Your task to perform on an android device: Clear all items from cart on bestbuy.com. Search for macbook pro on bestbuy.com, select the first entry, and add it to the cart. Image 0: 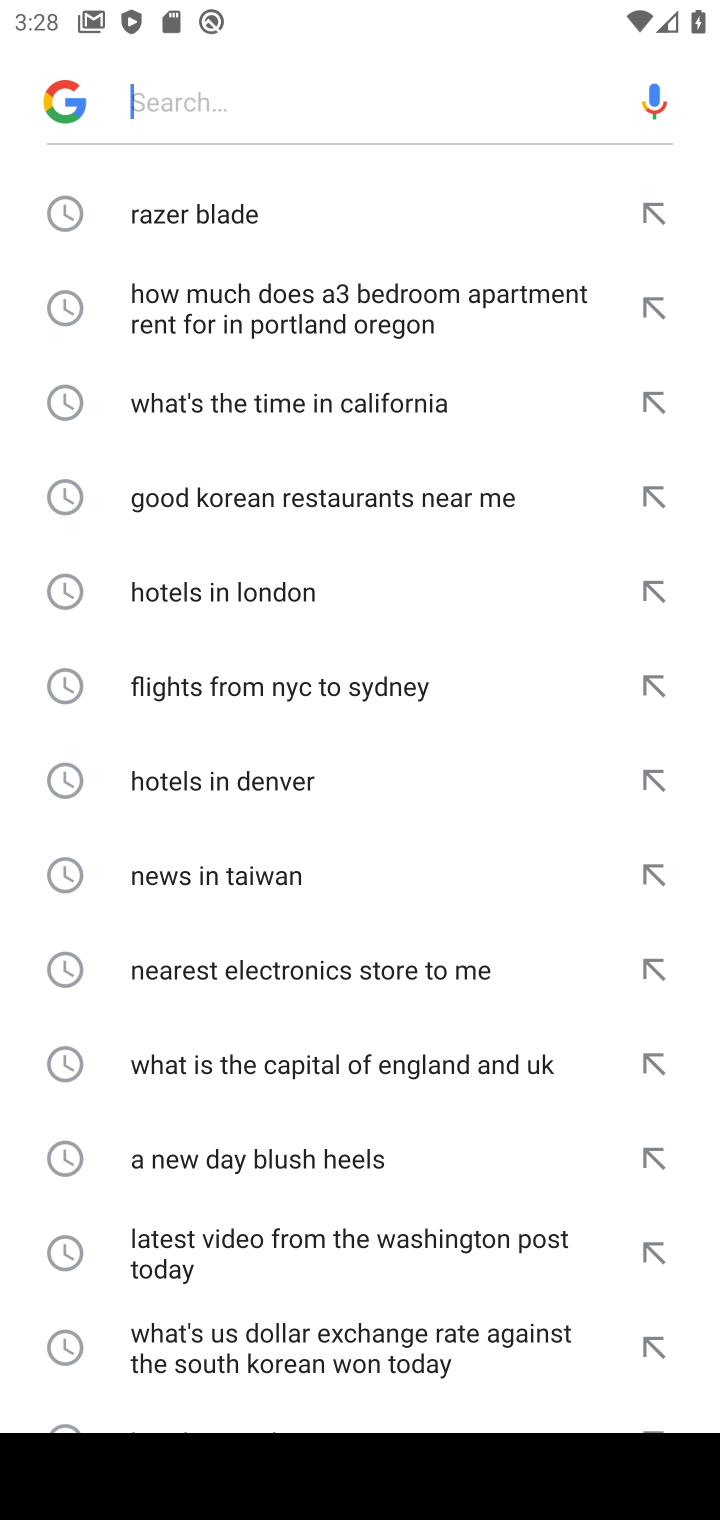
Step 0: press home button
Your task to perform on an android device: Clear all items from cart on bestbuy.com. Search for macbook pro on bestbuy.com, select the first entry, and add it to the cart. Image 1: 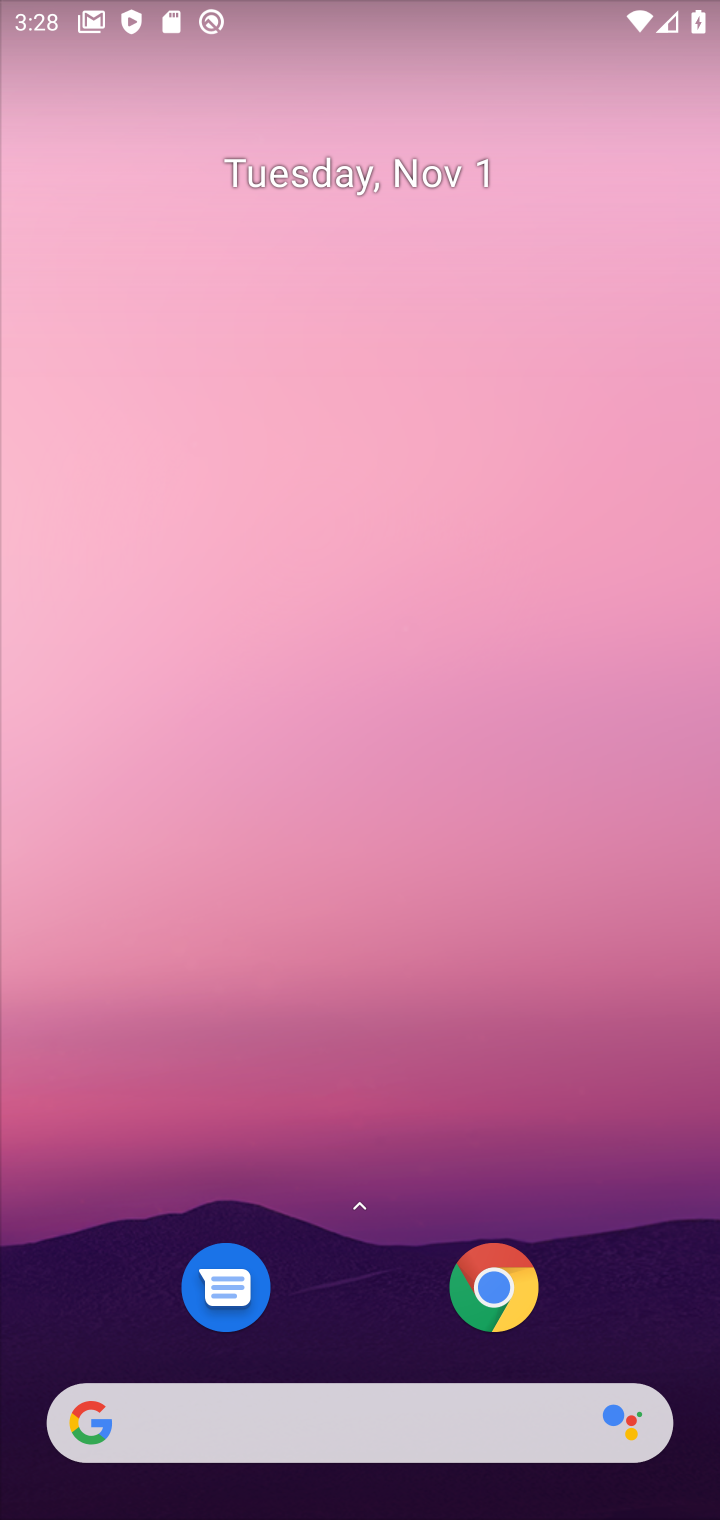
Step 1: drag from (384, 1137) to (514, 153)
Your task to perform on an android device: Clear all items from cart on bestbuy.com. Search for macbook pro on bestbuy.com, select the first entry, and add it to the cart. Image 2: 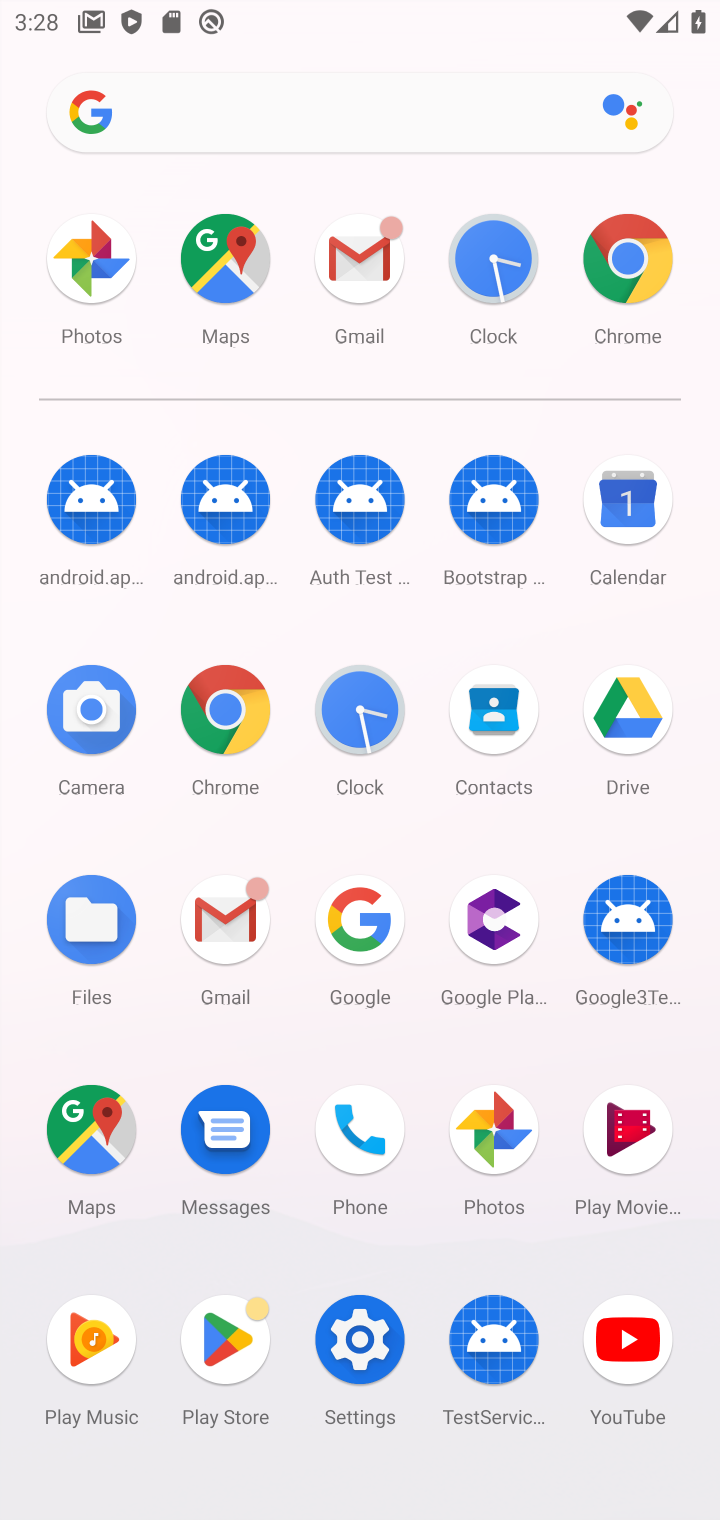
Step 2: click (233, 708)
Your task to perform on an android device: Clear all items from cart on bestbuy.com. Search for macbook pro on bestbuy.com, select the first entry, and add it to the cart. Image 3: 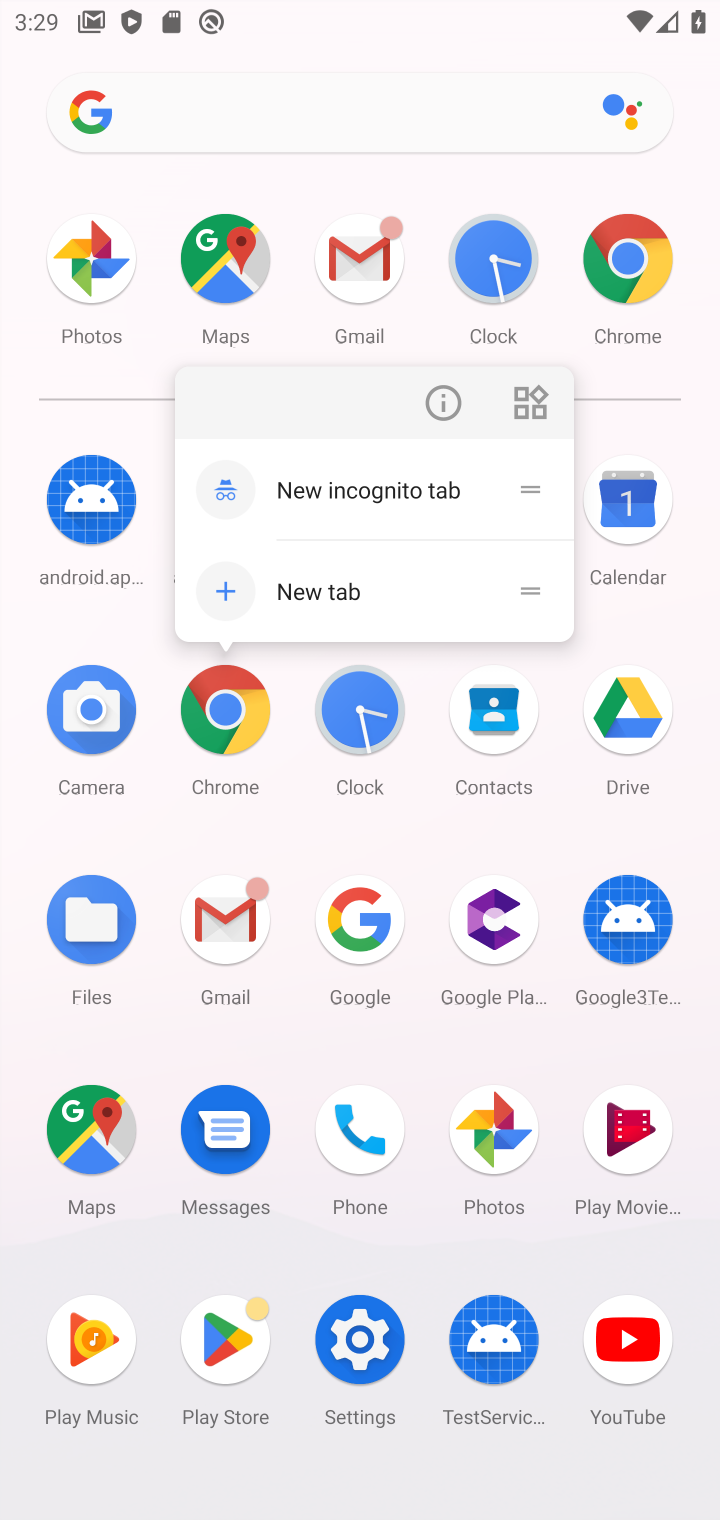
Step 3: click (233, 708)
Your task to perform on an android device: Clear all items from cart on bestbuy.com. Search for macbook pro on bestbuy.com, select the first entry, and add it to the cart. Image 4: 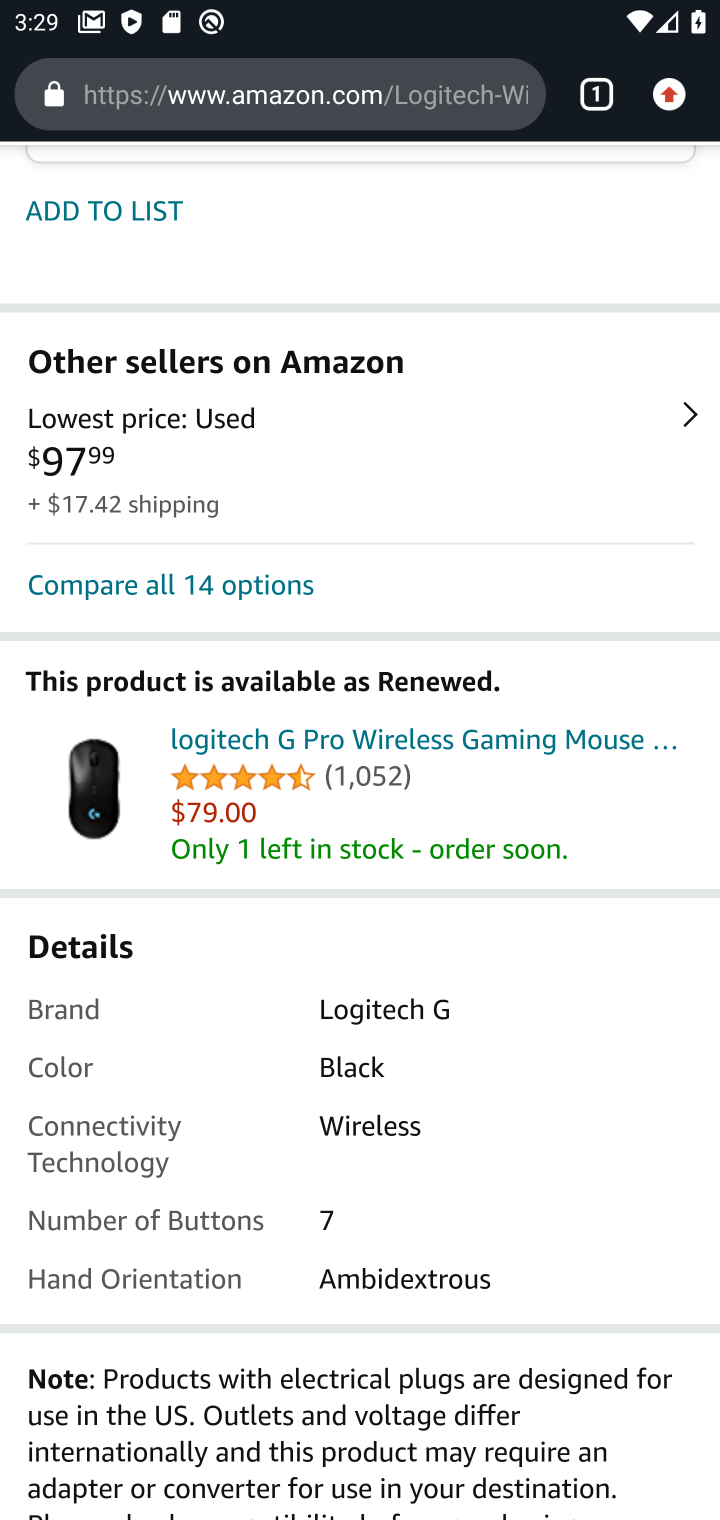
Step 4: drag from (419, 212) to (400, 661)
Your task to perform on an android device: Clear all items from cart on bestbuy.com. Search for macbook pro on bestbuy.com, select the first entry, and add it to the cart. Image 5: 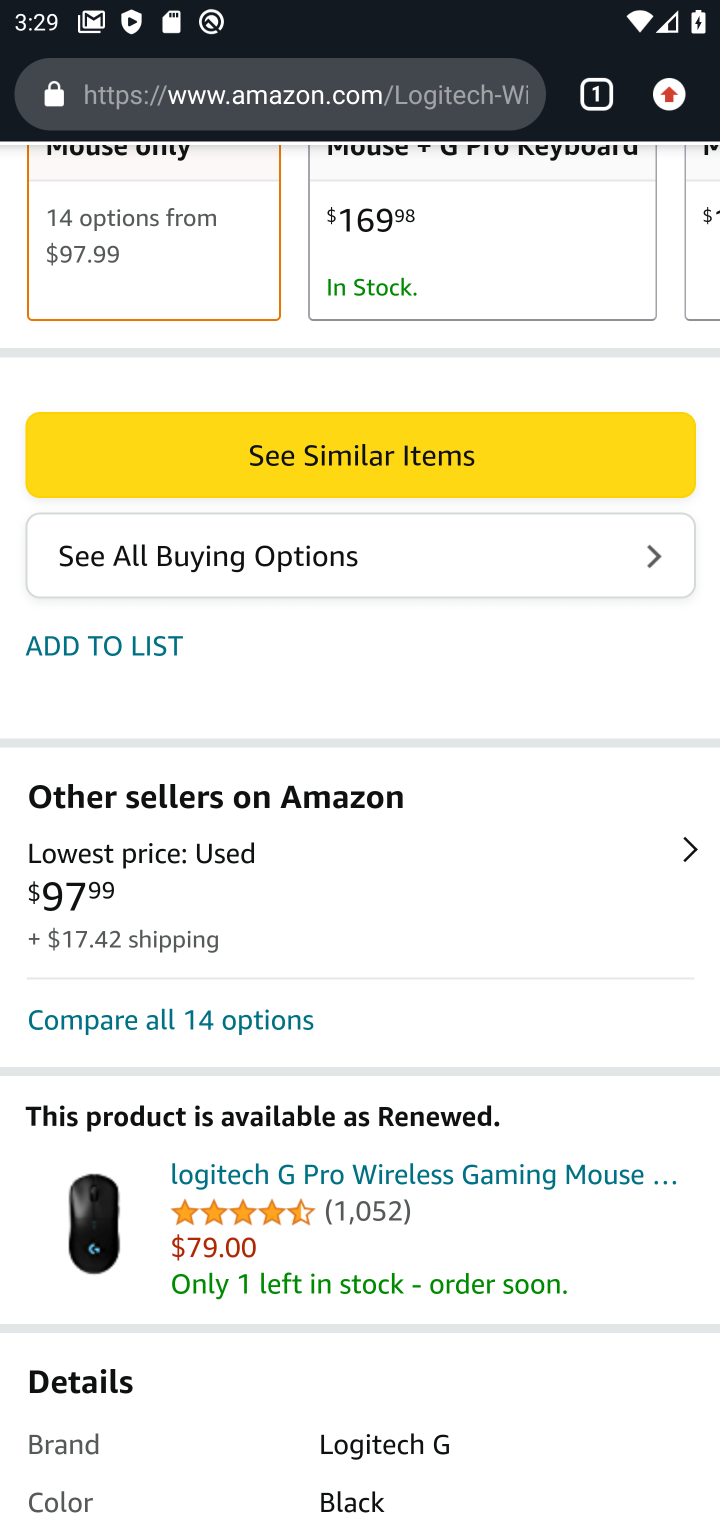
Step 5: click (331, 99)
Your task to perform on an android device: Clear all items from cart on bestbuy.com. Search for macbook pro on bestbuy.com, select the first entry, and add it to the cart. Image 6: 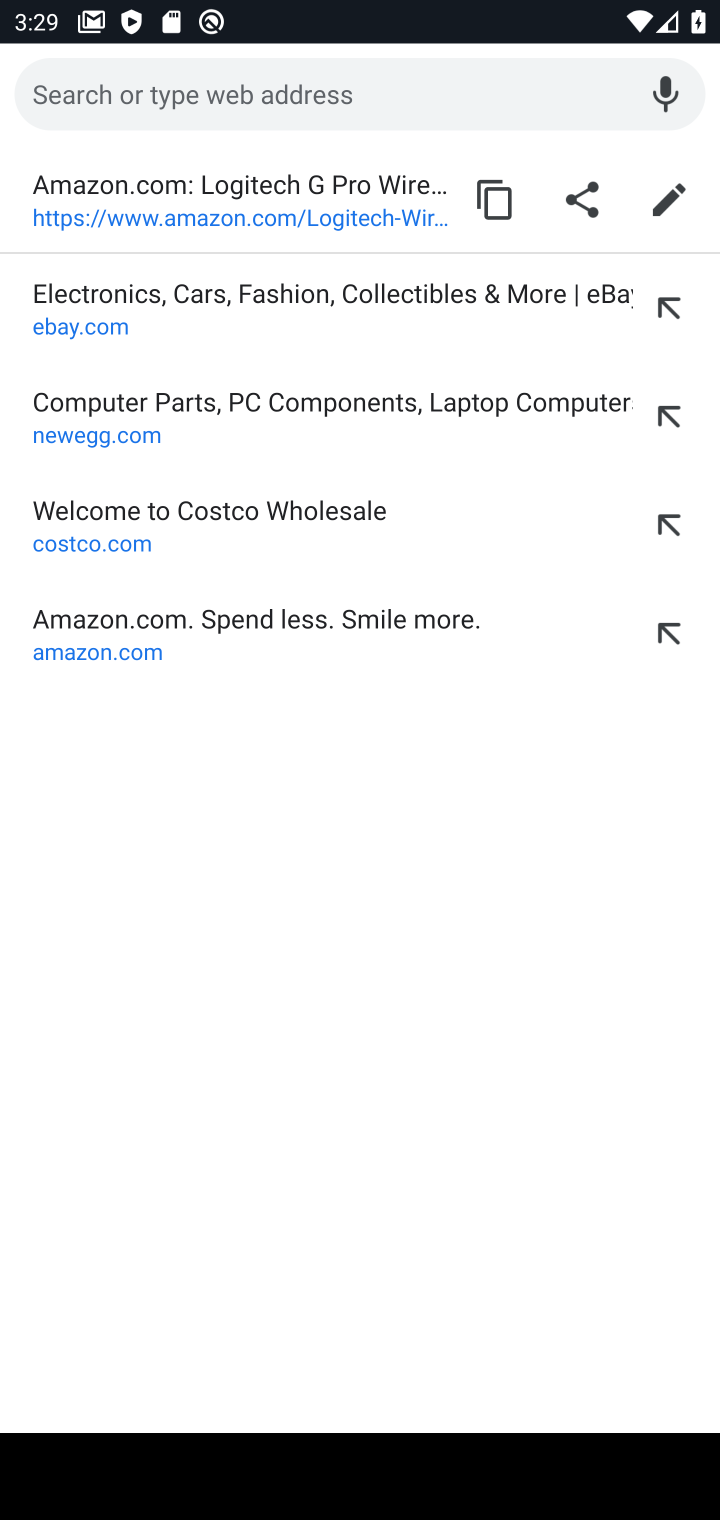
Step 6: type "bestbuy.com"
Your task to perform on an android device: Clear all items from cart on bestbuy.com. Search for macbook pro on bestbuy.com, select the first entry, and add it to the cart. Image 7: 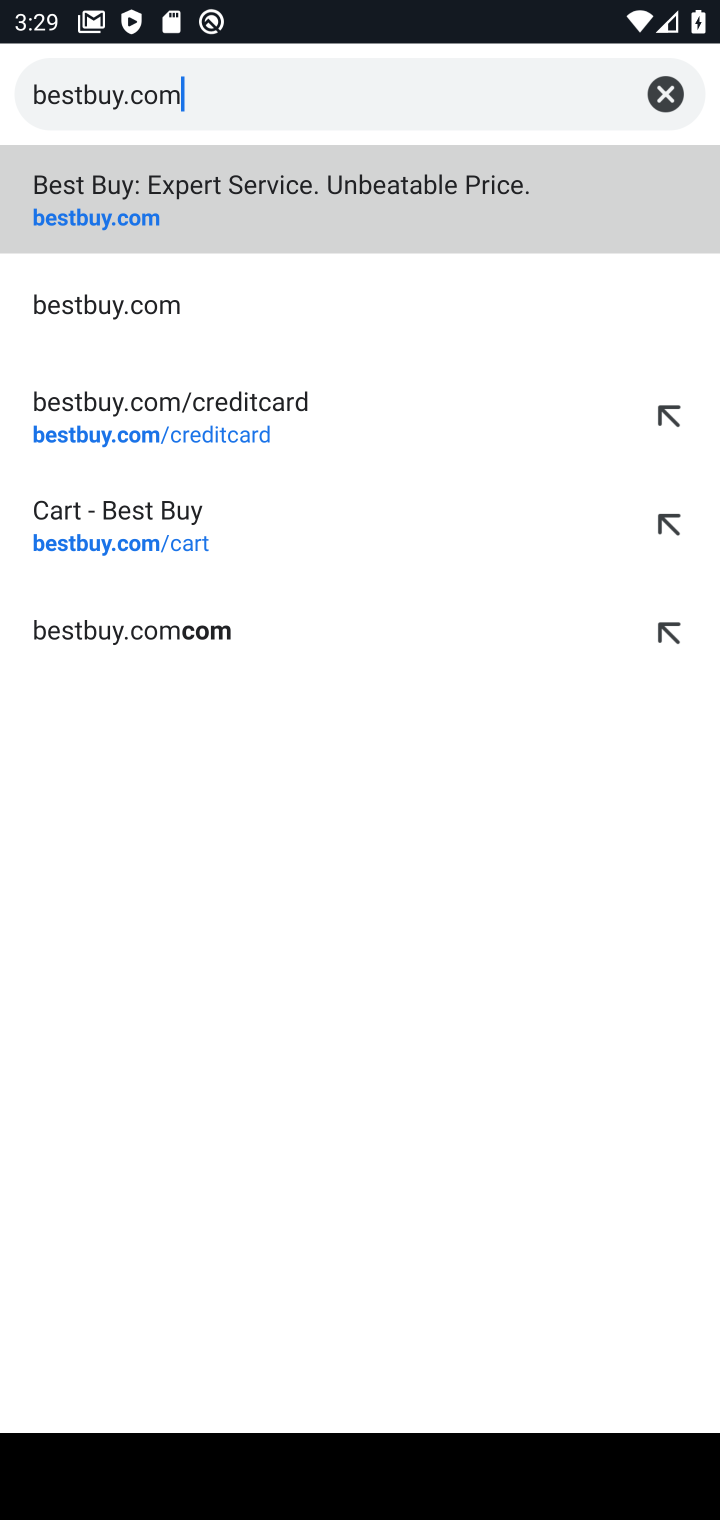
Step 7: press enter
Your task to perform on an android device: Clear all items from cart on bestbuy.com. Search for macbook pro on bestbuy.com, select the first entry, and add it to the cart. Image 8: 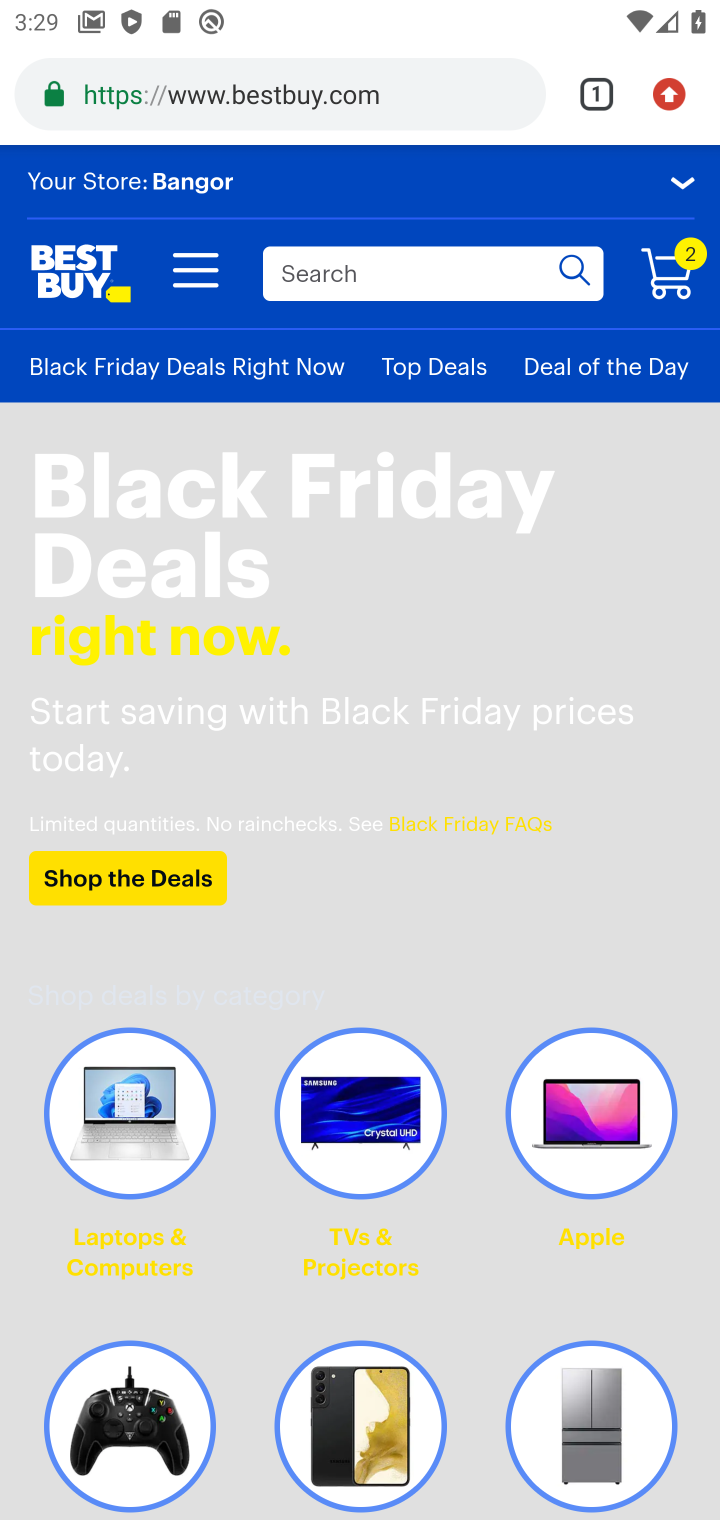
Step 8: click (677, 274)
Your task to perform on an android device: Clear all items from cart on bestbuy.com. Search for macbook pro on bestbuy.com, select the first entry, and add it to the cart. Image 9: 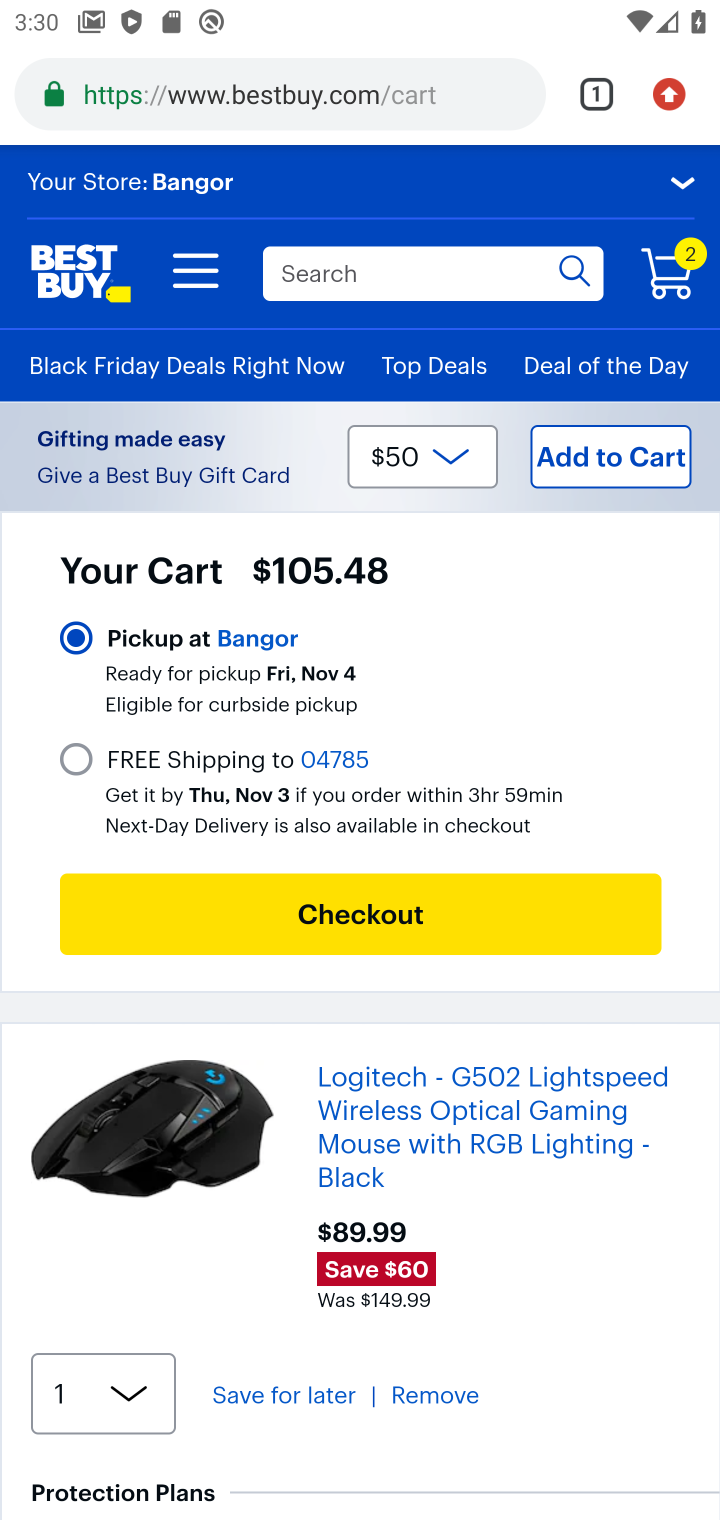
Step 9: click (403, 1396)
Your task to perform on an android device: Clear all items from cart on bestbuy.com. Search for macbook pro on bestbuy.com, select the first entry, and add it to the cart. Image 10: 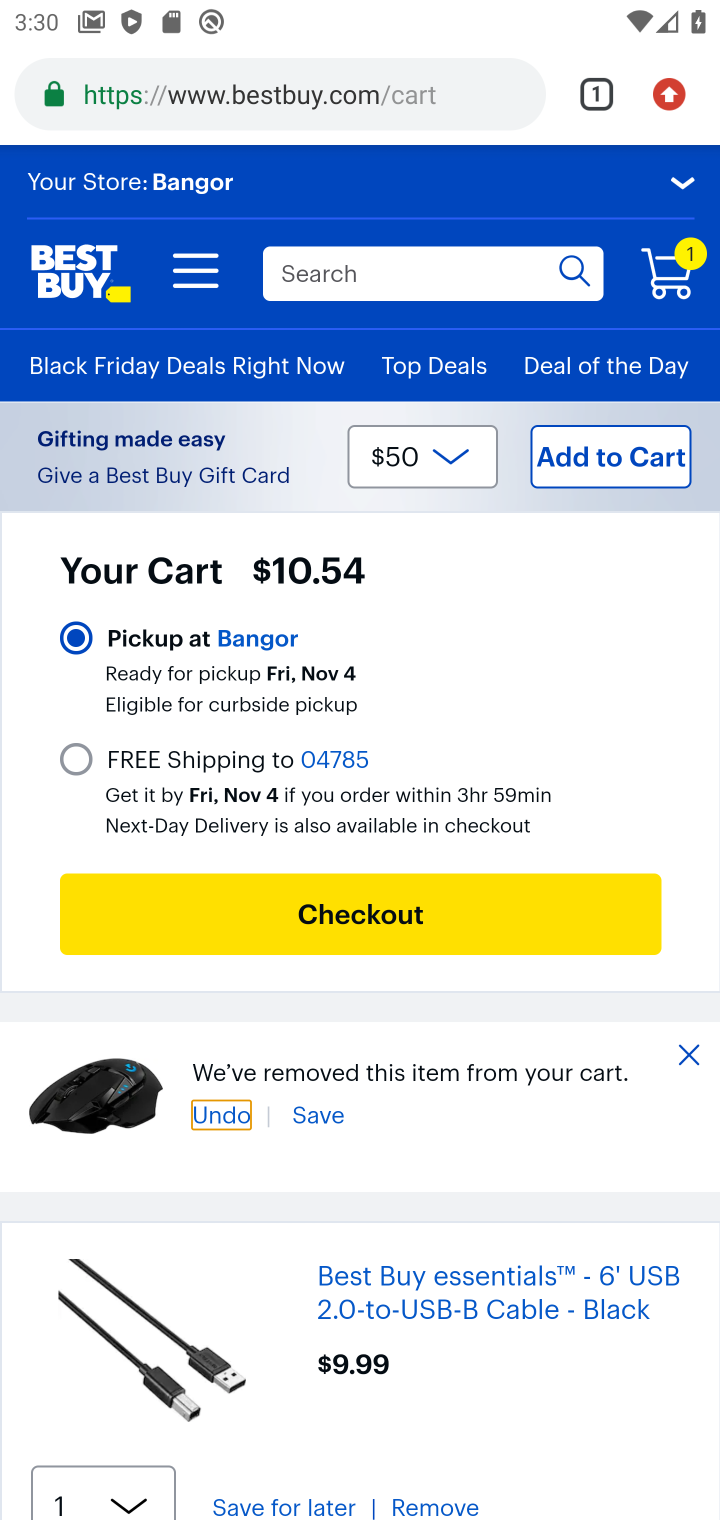
Step 10: drag from (409, 1220) to (470, 693)
Your task to perform on an android device: Clear all items from cart on bestbuy.com. Search for macbook pro on bestbuy.com, select the first entry, and add it to the cart. Image 11: 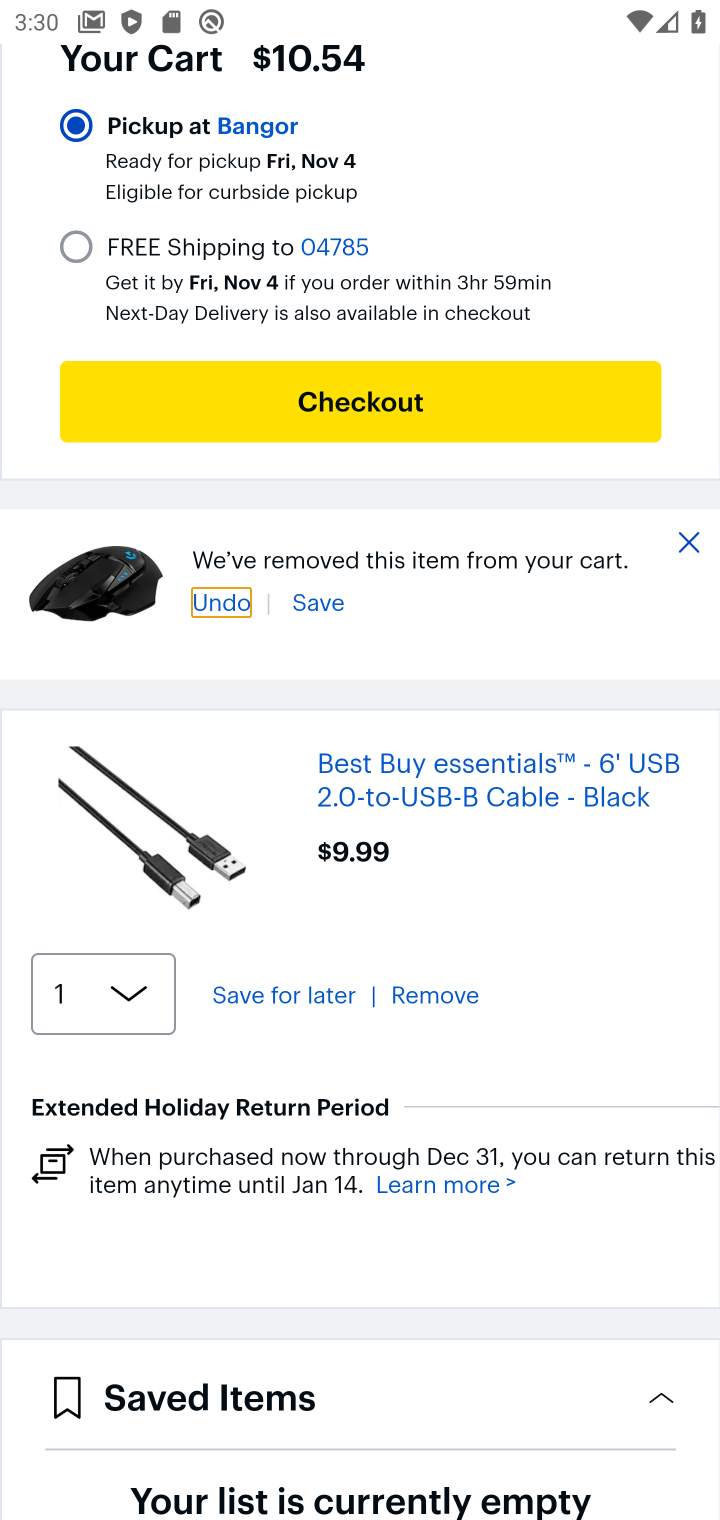
Step 11: click (441, 991)
Your task to perform on an android device: Clear all items from cart on bestbuy.com. Search for macbook pro on bestbuy.com, select the first entry, and add it to the cart. Image 12: 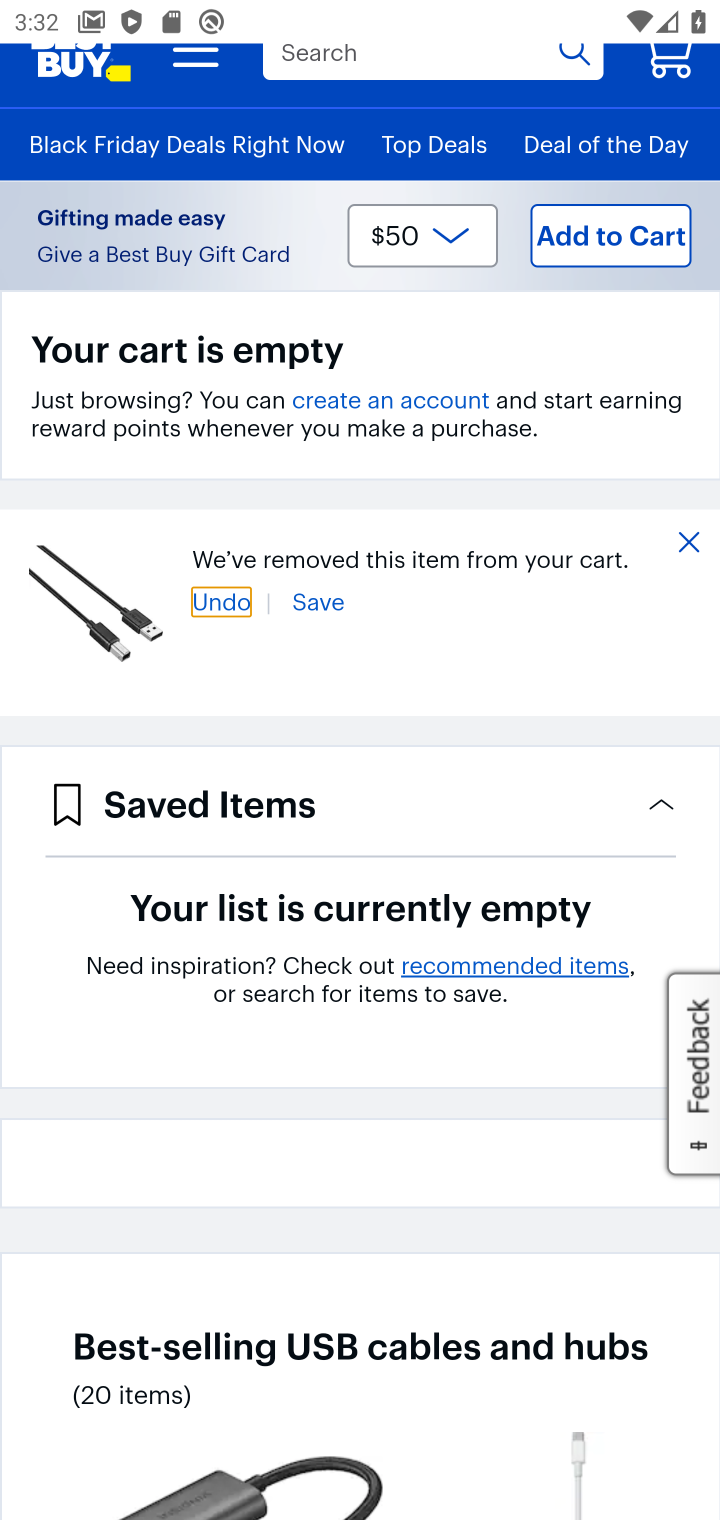
Step 12: drag from (498, 996) to (499, 460)
Your task to perform on an android device: Clear all items from cart on bestbuy.com. Search for macbook pro on bestbuy.com, select the first entry, and add it to the cart. Image 13: 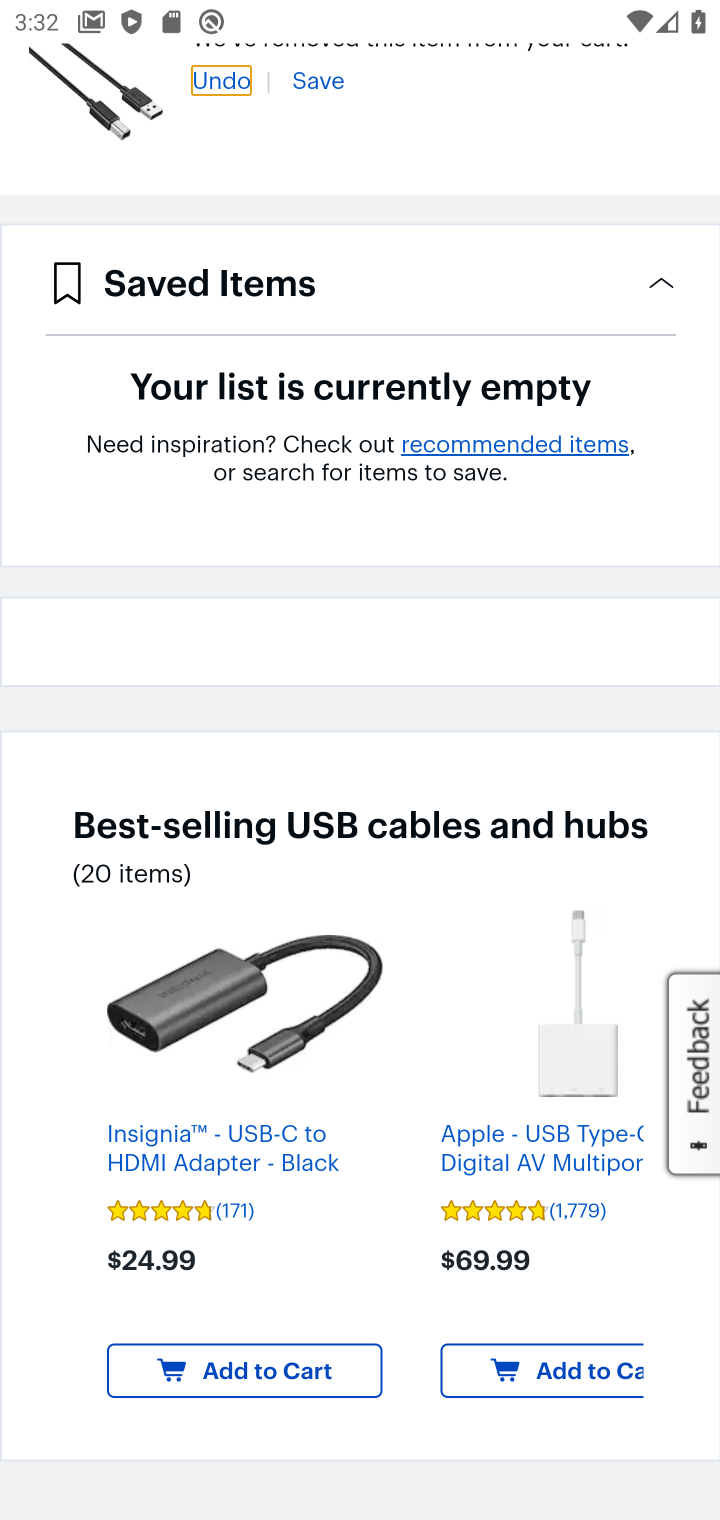
Step 13: drag from (325, 325) to (417, 1225)
Your task to perform on an android device: Clear all items from cart on bestbuy.com. Search for macbook pro on bestbuy.com, select the first entry, and add it to the cart. Image 14: 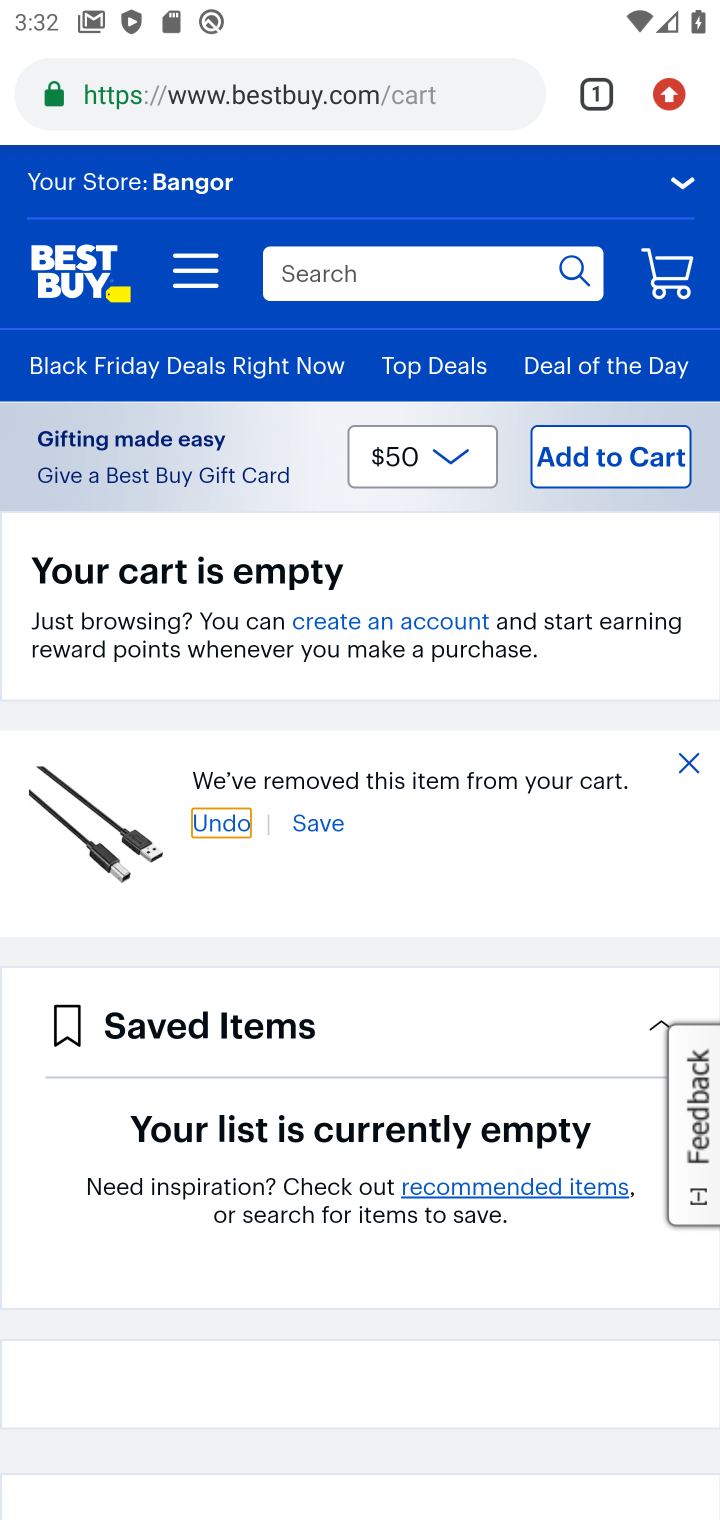
Step 14: click (516, 274)
Your task to perform on an android device: Clear all items from cart on bestbuy.com. Search for macbook pro on bestbuy.com, select the first entry, and add it to the cart. Image 15: 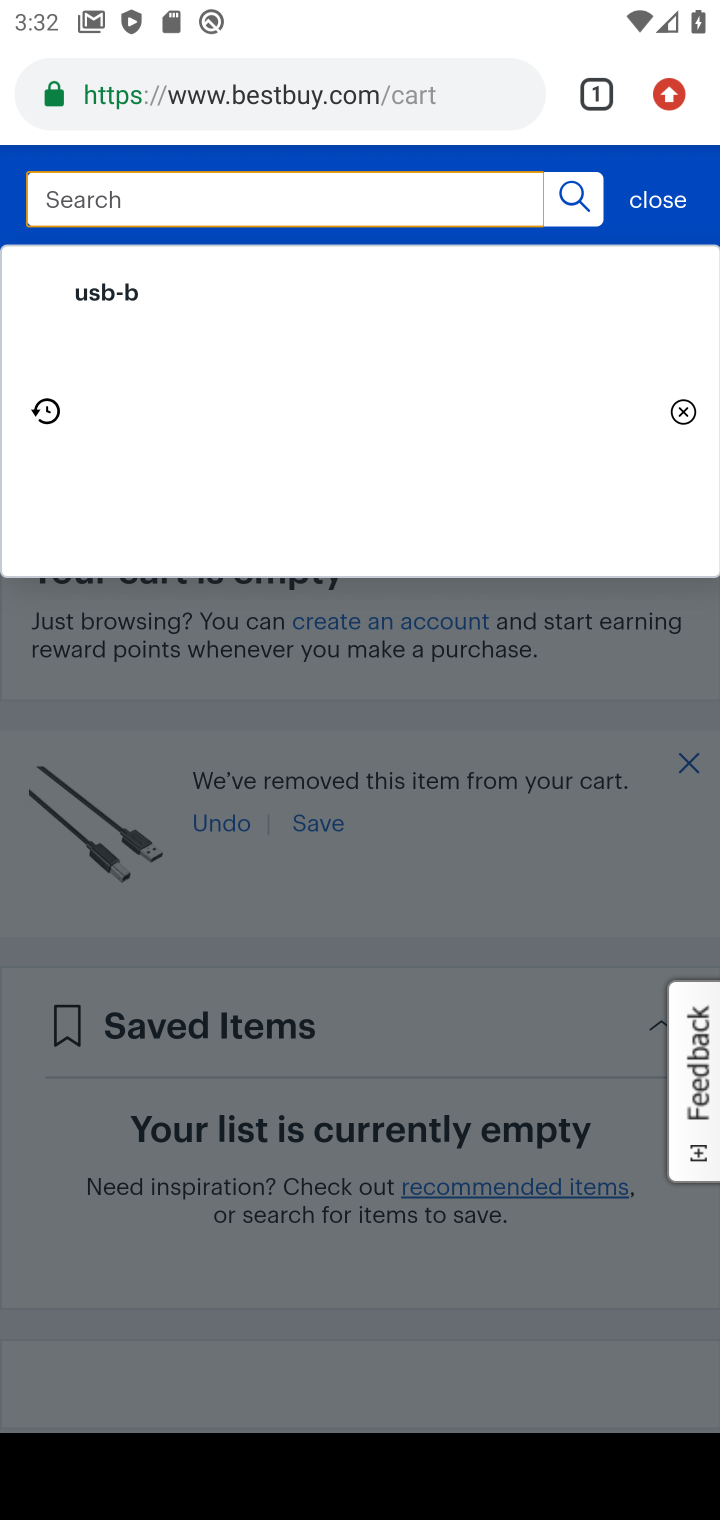
Step 15: type "macbook pro"
Your task to perform on an android device: Clear all items from cart on bestbuy.com. Search for macbook pro on bestbuy.com, select the first entry, and add it to the cart. Image 16: 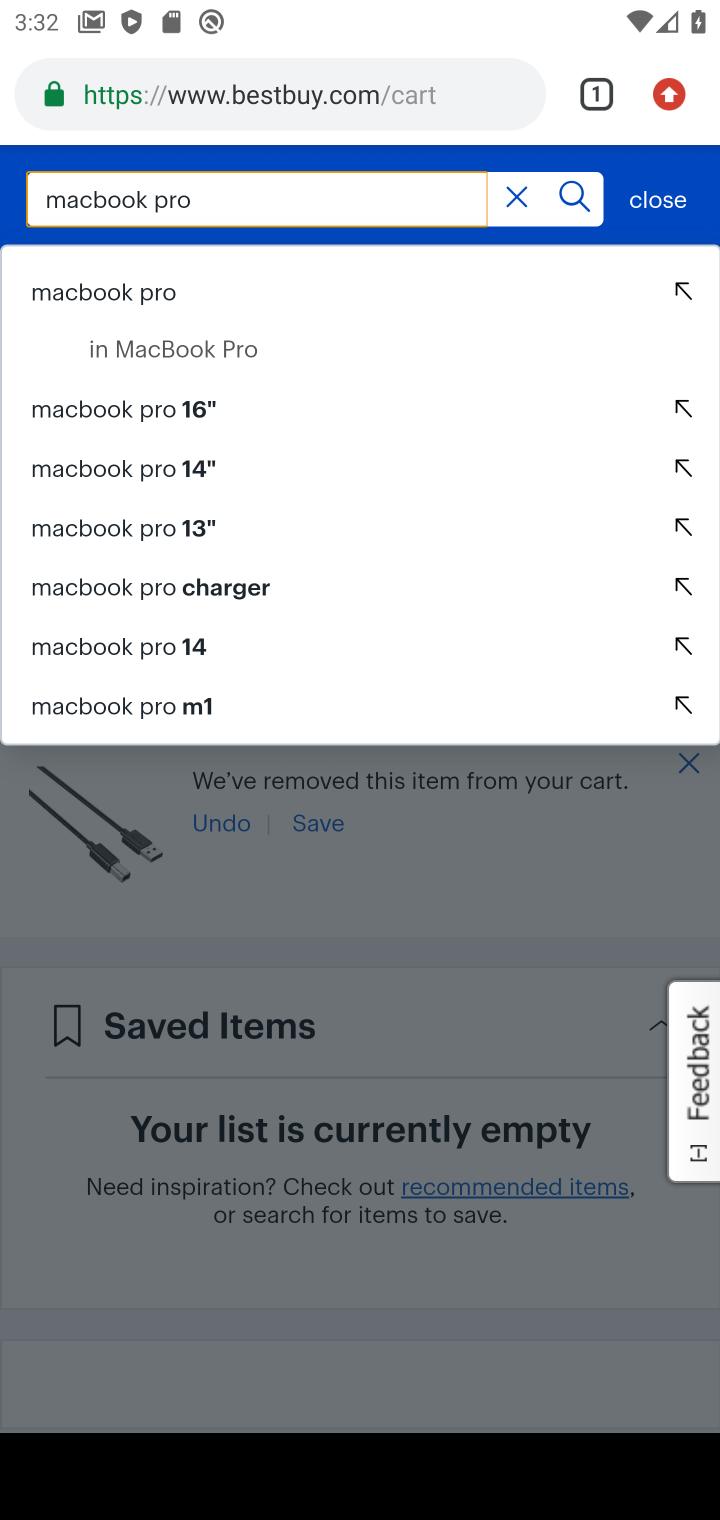
Step 16: press enter
Your task to perform on an android device: Clear all items from cart on bestbuy.com. Search for macbook pro on bestbuy.com, select the first entry, and add it to the cart. Image 17: 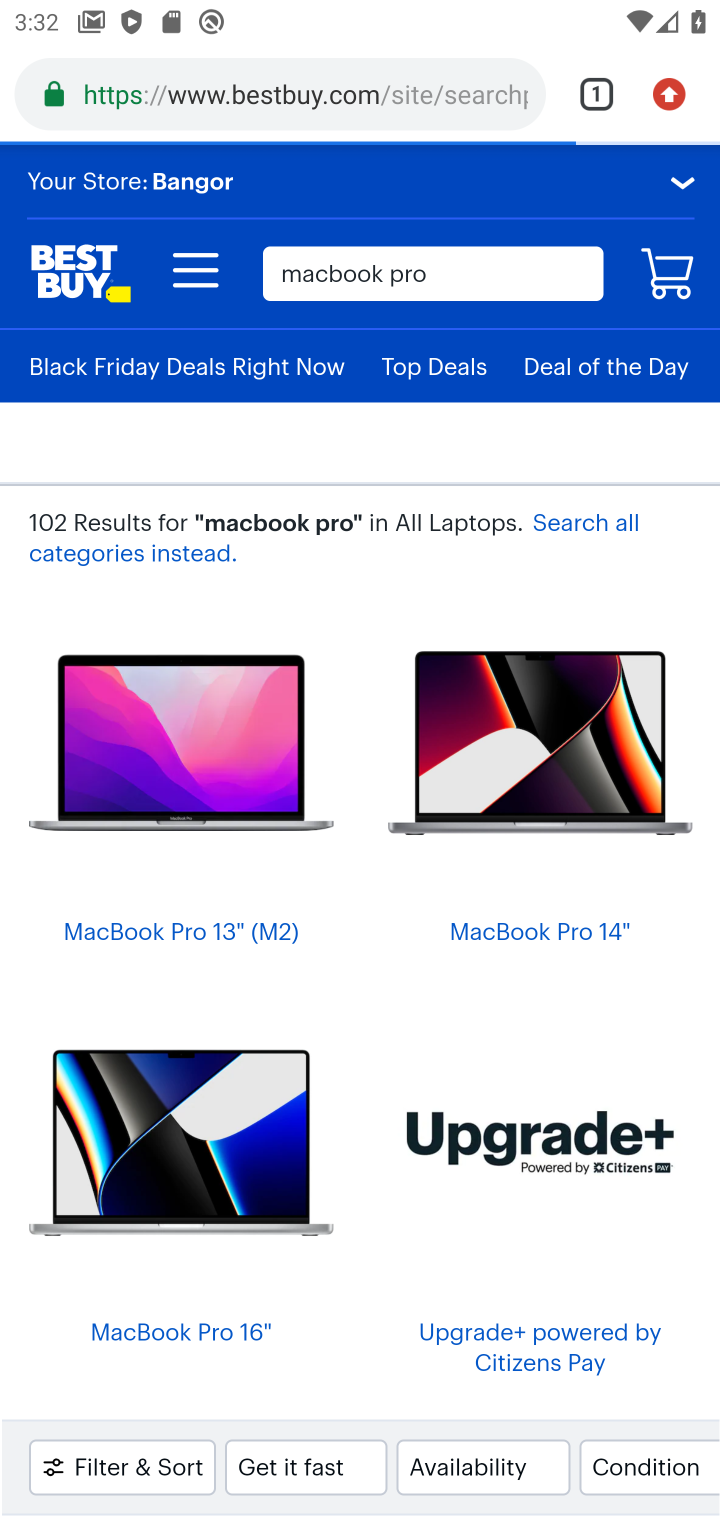
Step 17: drag from (401, 1133) to (386, 174)
Your task to perform on an android device: Clear all items from cart on bestbuy.com. Search for macbook pro on bestbuy.com, select the first entry, and add it to the cart. Image 18: 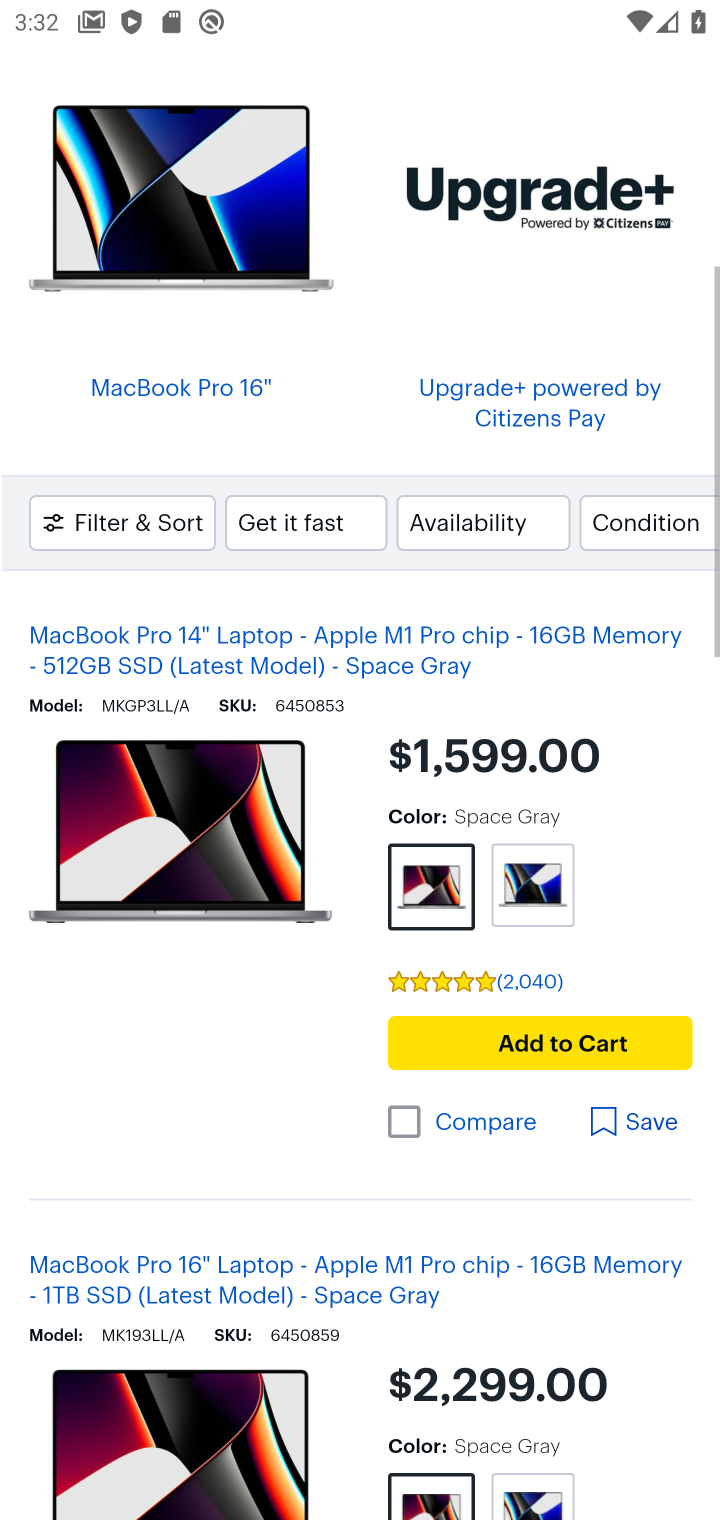
Step 18: drag from (374, 673) to (291, 1287)
Your task to perform on an android device: Clear all items from cart on bestbuy.com. Search for macbook pro on bestbuy.com, select the first entry, and add it to the cart. Image 19: 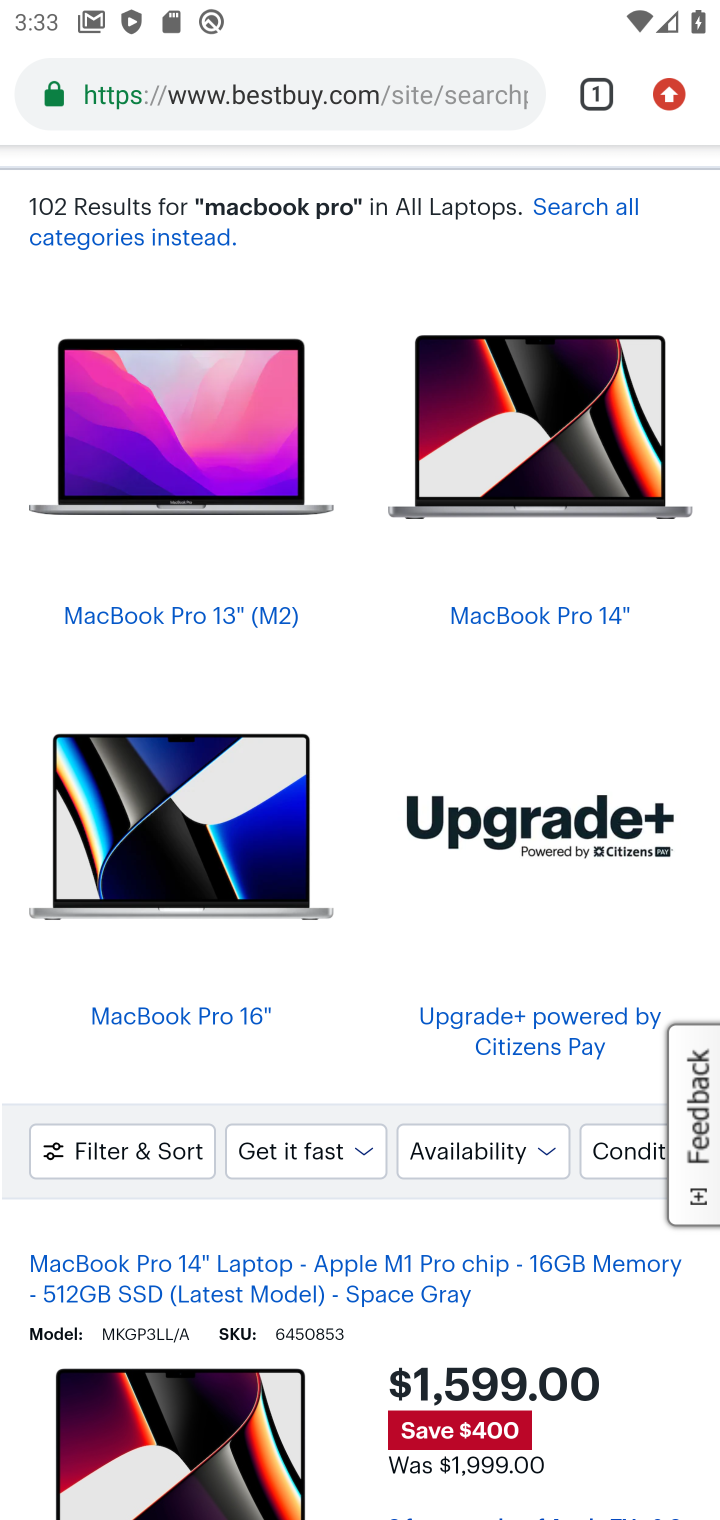
Step 19: drag from (419, 642) to (428, 1204)
Your task to perform on an android device: Clear all items from cart on bestbuy.com. Search for macbook pro on bestbuy.com, select the first entry, and add it to the cart. Image 20: 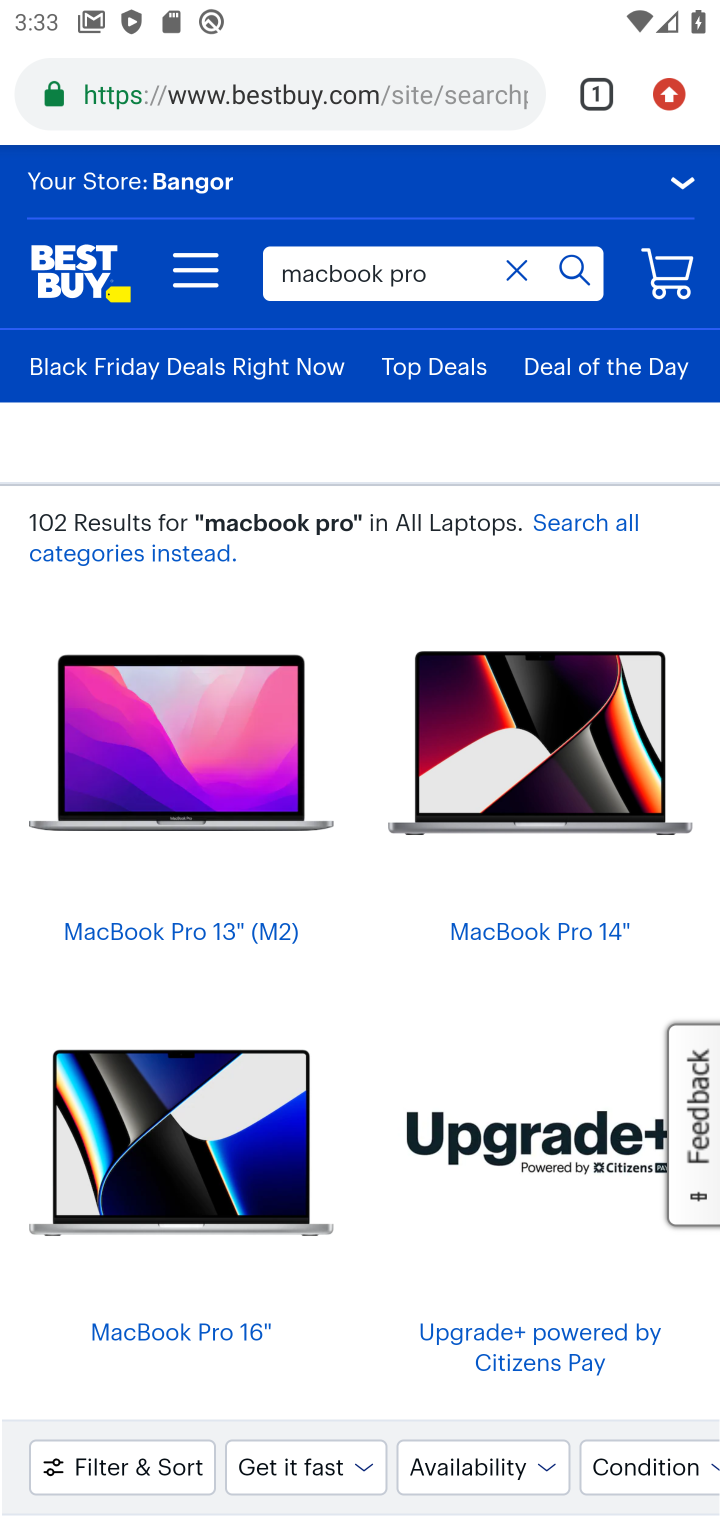
Step 20: click (219, 925)
Your task to perform on an android device: Clear all items from cart on bestbuy.com. Search for macbook pro on bestbuy.com, select the first entry, and add it to the cart. Image 21: 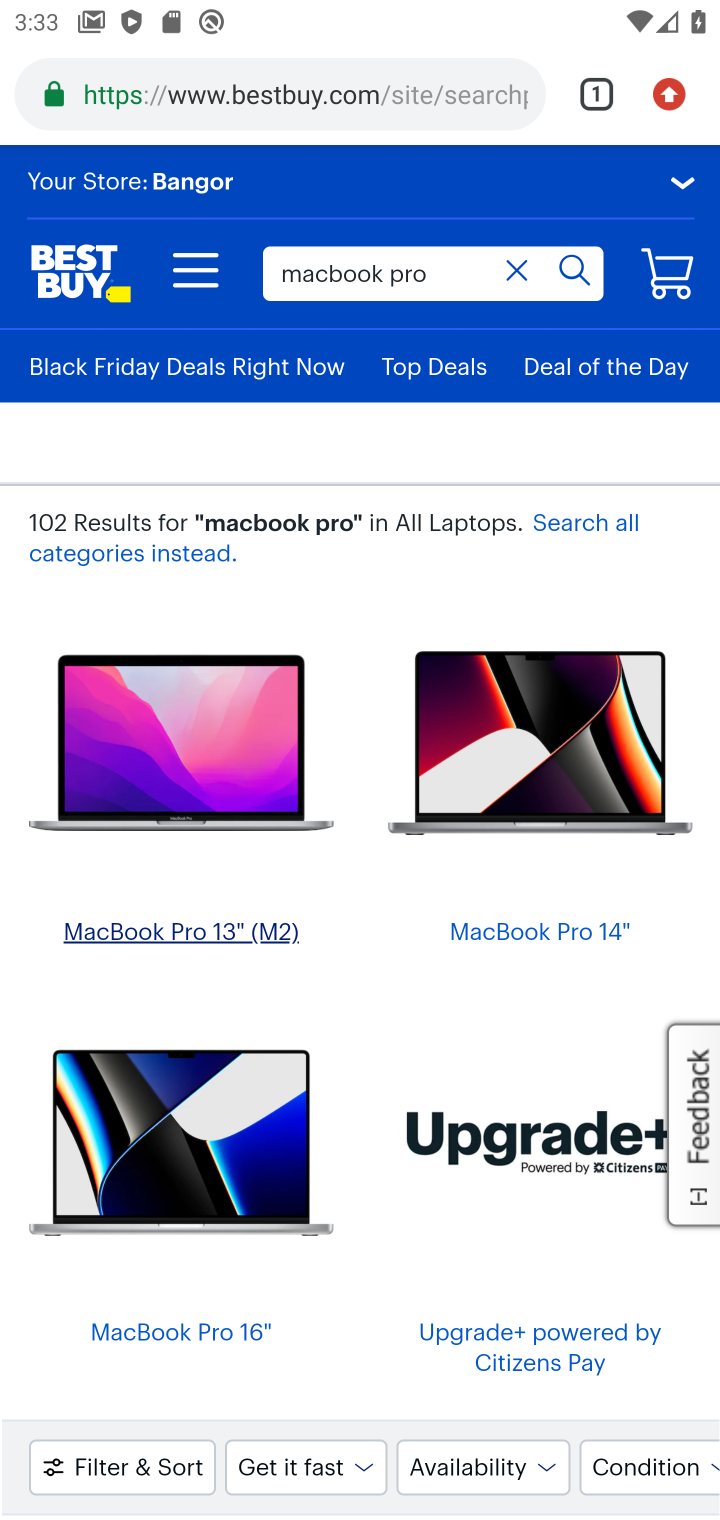
Step 21: click (196, 788)
Your task to perform on an android device: Clear all items from cart on bestbuy.com. Search for macbook pro on bestbuy.com, select the first entry, and add it to the cart. Image 22: 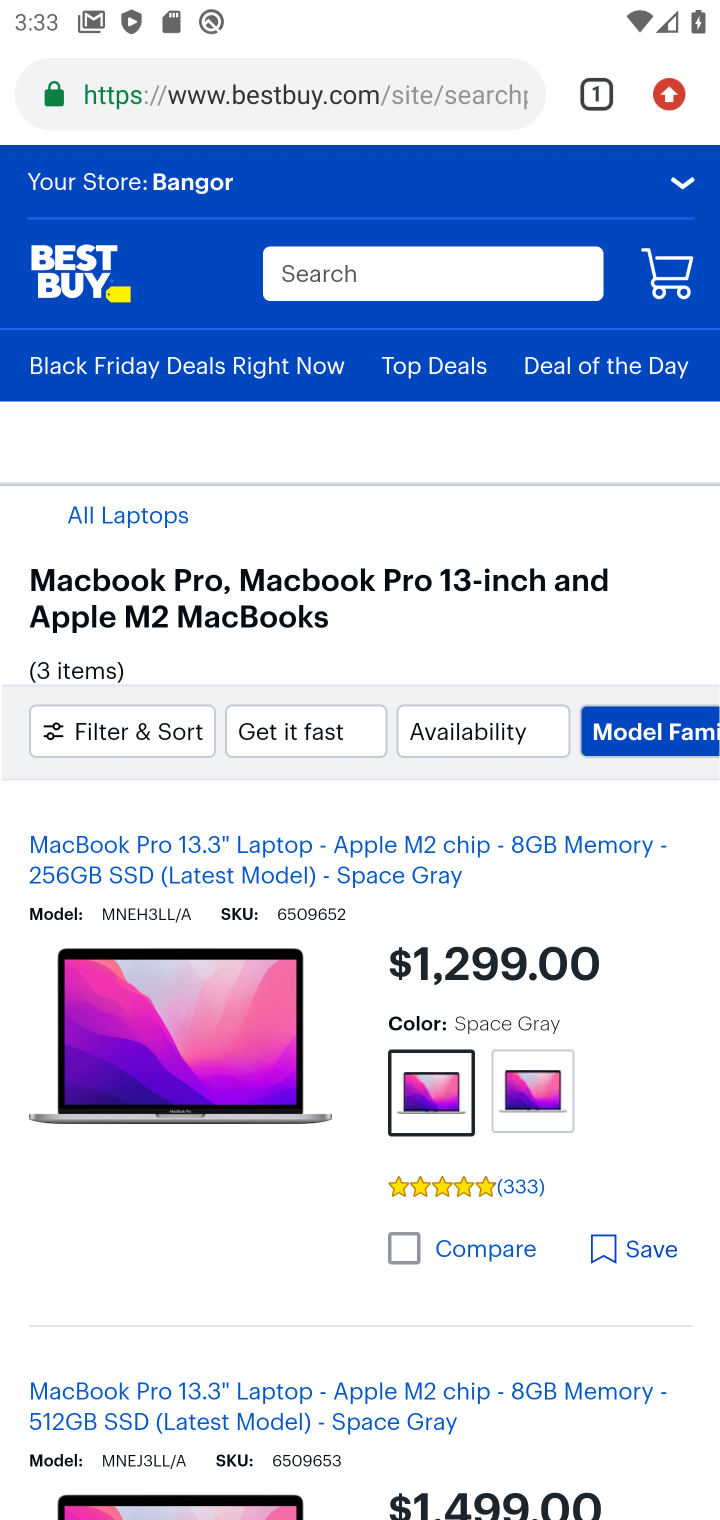
Step 22: drag from (593, 1035) to (574, 308)
Your task to perform on an android device: Clear all items from cart on bestbuy.com. Search for macbook pro on bestbuy.com, select the first entry, and add it to the cart. Image 23: 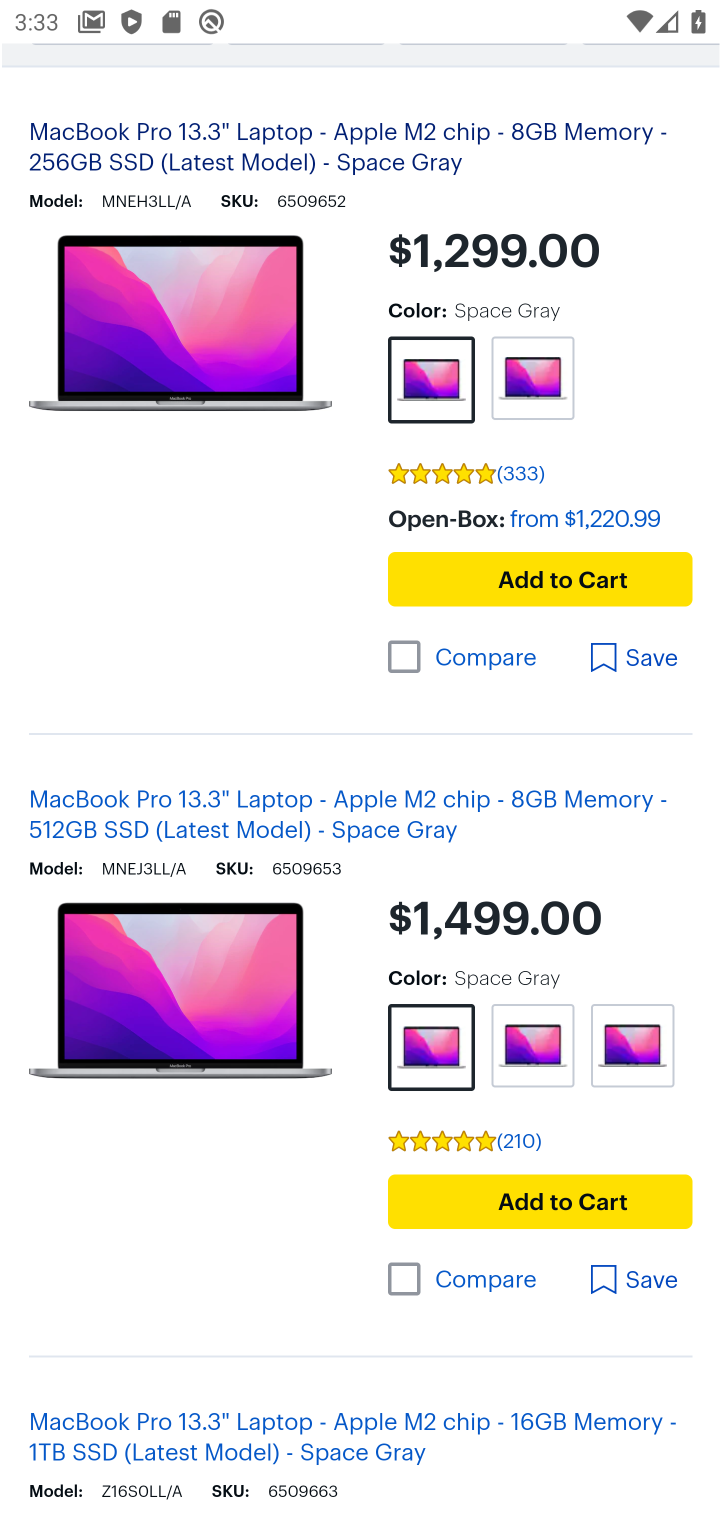
Step 23: click (200, 365)
Your task to perform on an android device: Clear all items from cart on bestbuy.com. Search for macbook pro on bestbuy.com, select the first entry, and add it to the cart. Image 24: 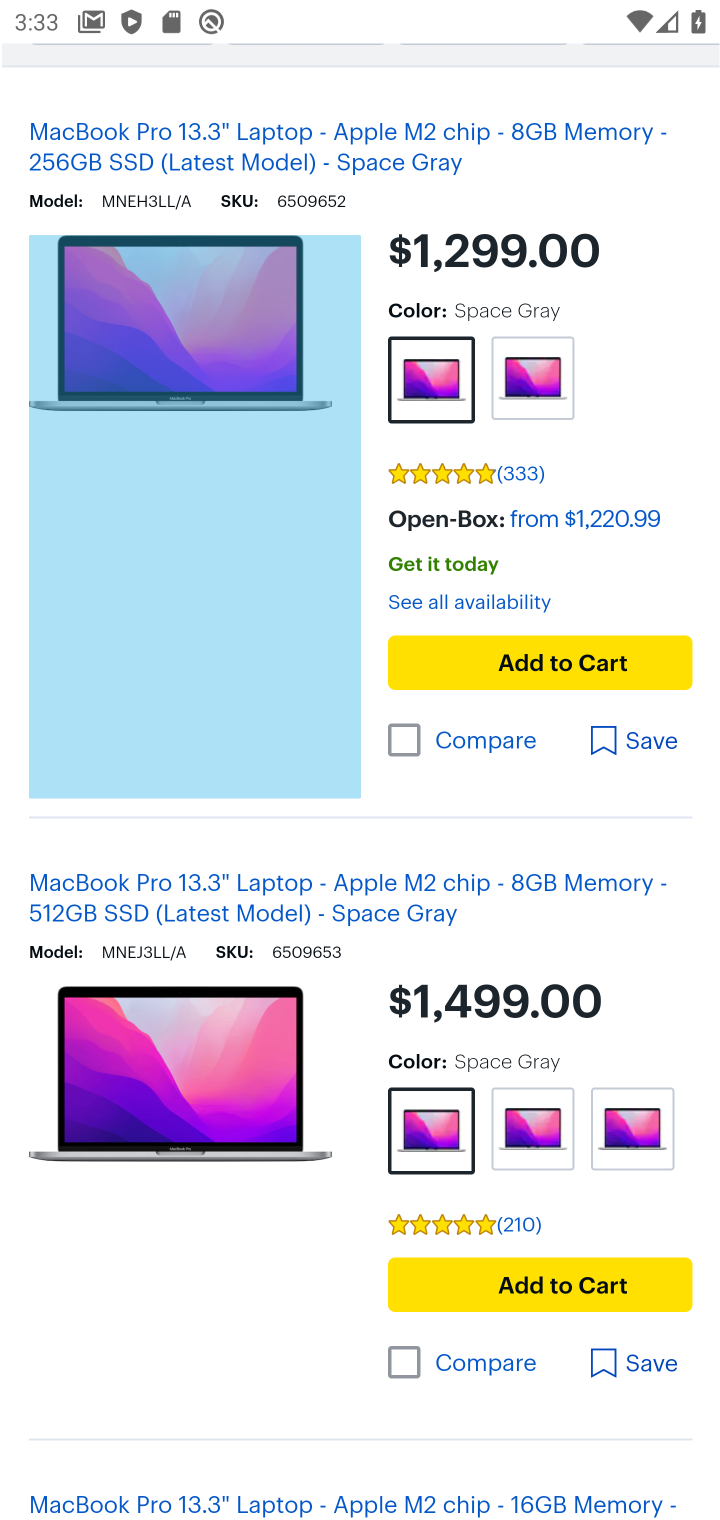
Step 24: click (606, 658)
Your task to perform on an android device: Clear all items from cart on bestbuy.com. Search for macbook pro on bestbuy.com, select the first entry, and add it to the cart. Image 25: 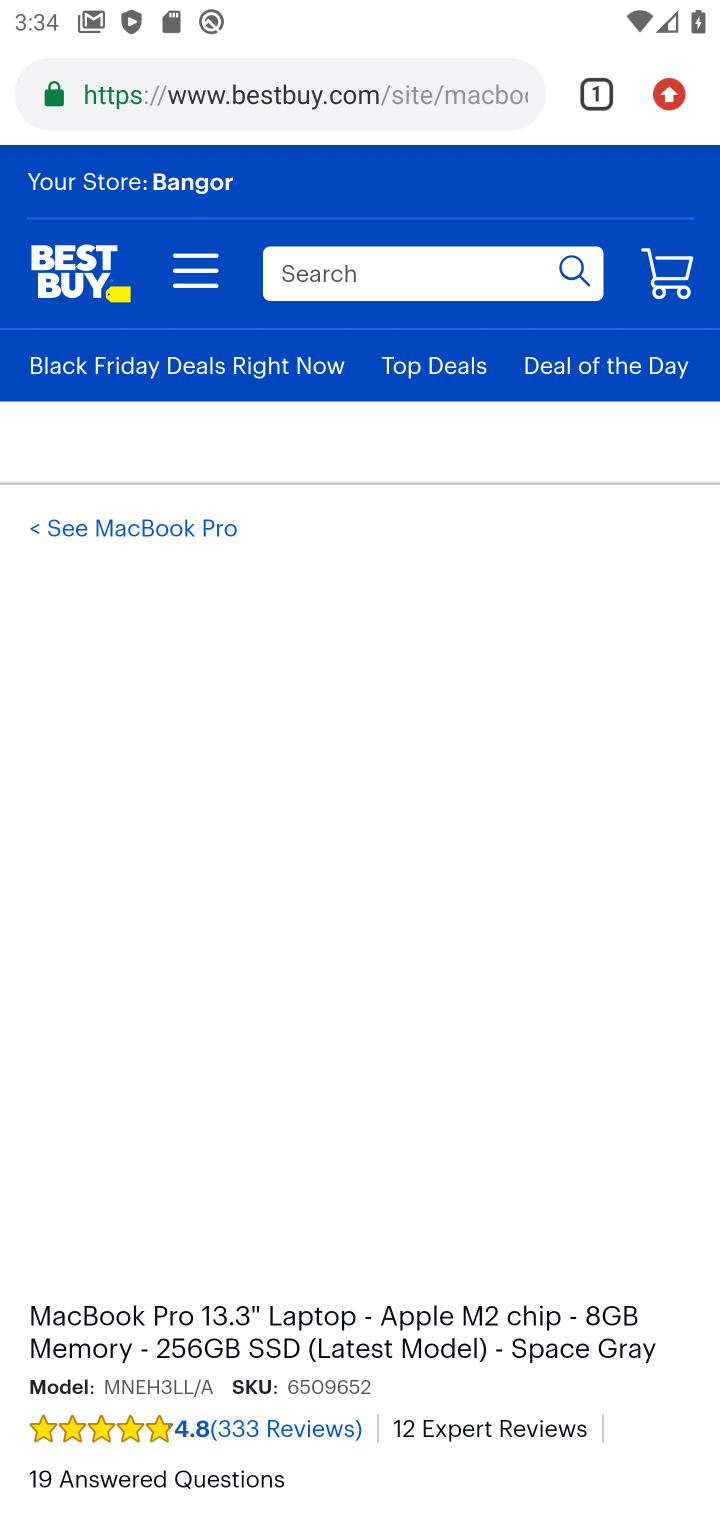
Step 25: drag from (410, 1115) to (251, 370)
Your task to perform on an android device: Clear all items from cart on bestbuy.com. Search for macbook pro on bestbuy.com, select the first entry, and add it to the cart. Image 26: 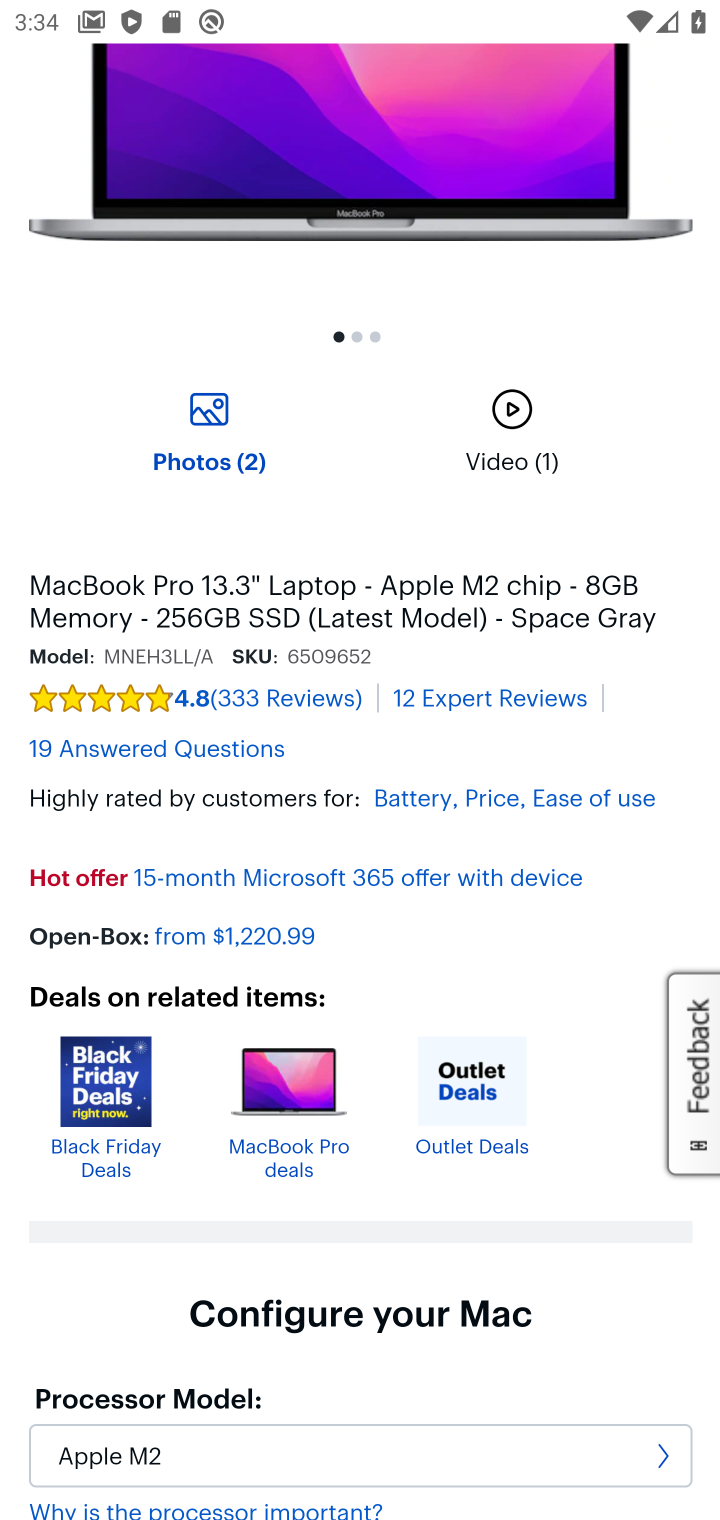
Step 26: drag from (433, 815) to (548, 14)
Your task to perform on an android device: Clear all items from cart on bestbuy.com. Search for macbook pro on bestbuy.com, select the first entry, and add it to the cart. Image 27: 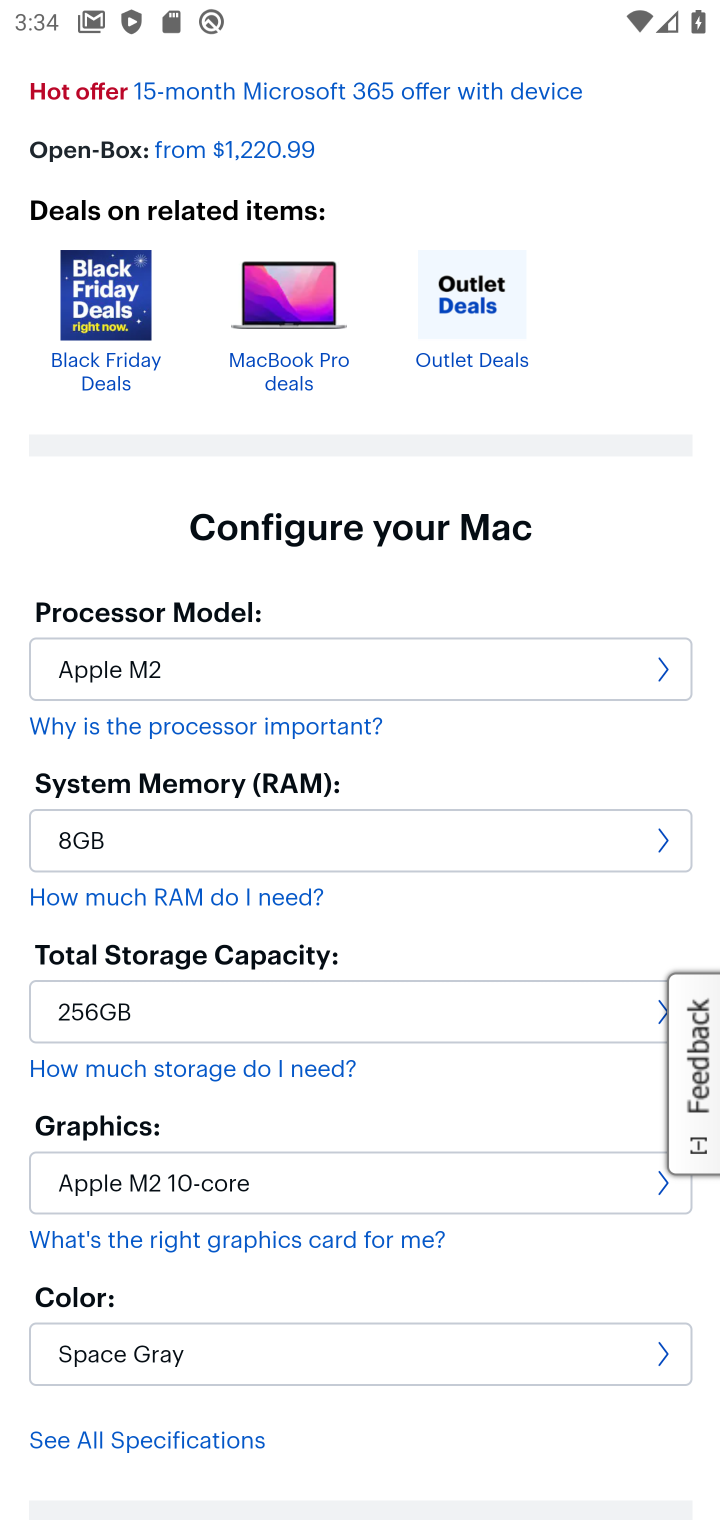
Step 27: drag from (449, 1115) to (541, 135)
Your task to perform on an android device: Clear all items from cart on bestbuy.com. Search for macbook pro on bestbuy.com, select the first entry, and add it to the cart. Image 28: 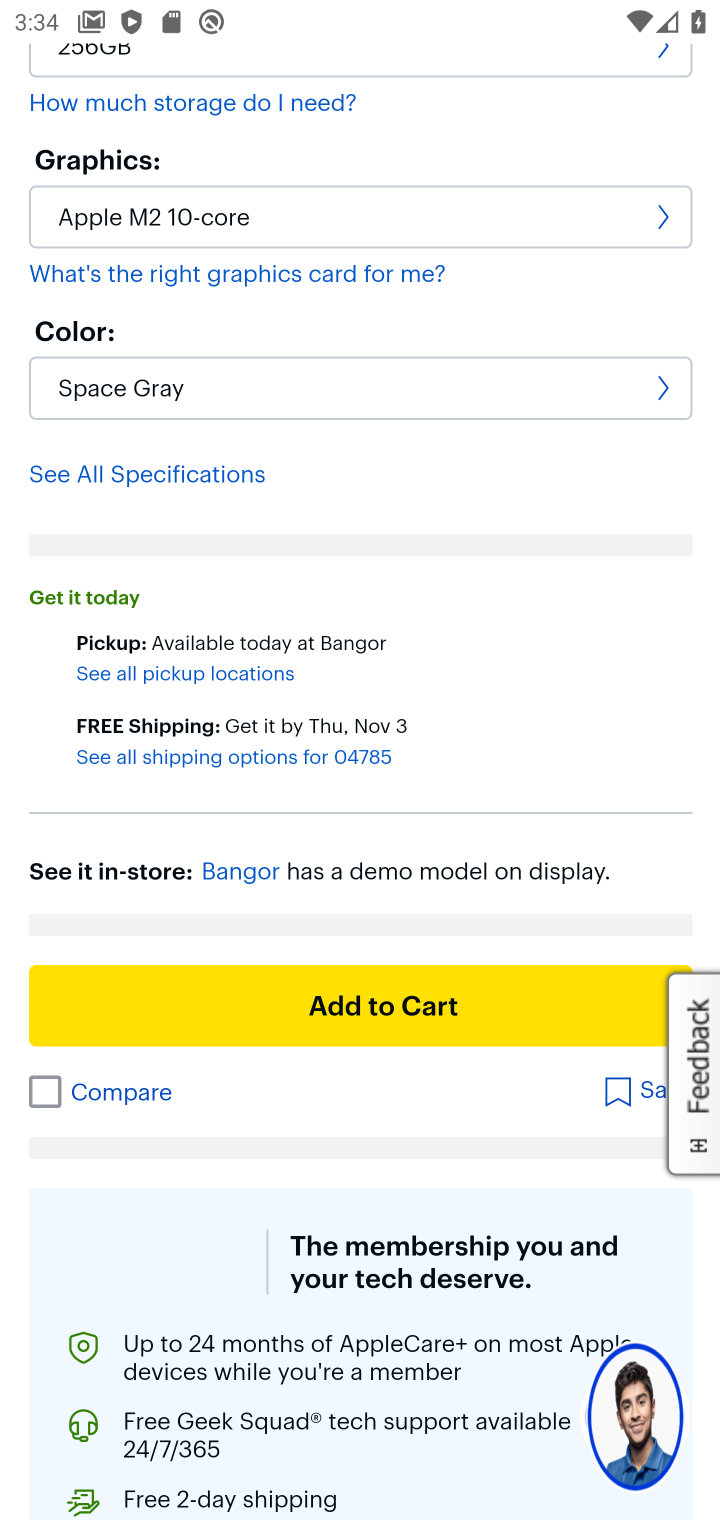
Step 28: click (366, 993)
Your task to perform on an android device: Clear all items from cart on bestbuy.com. Search for macbook pro on bestbuy.com, select the first entry, and add it to the cart. Image 29: 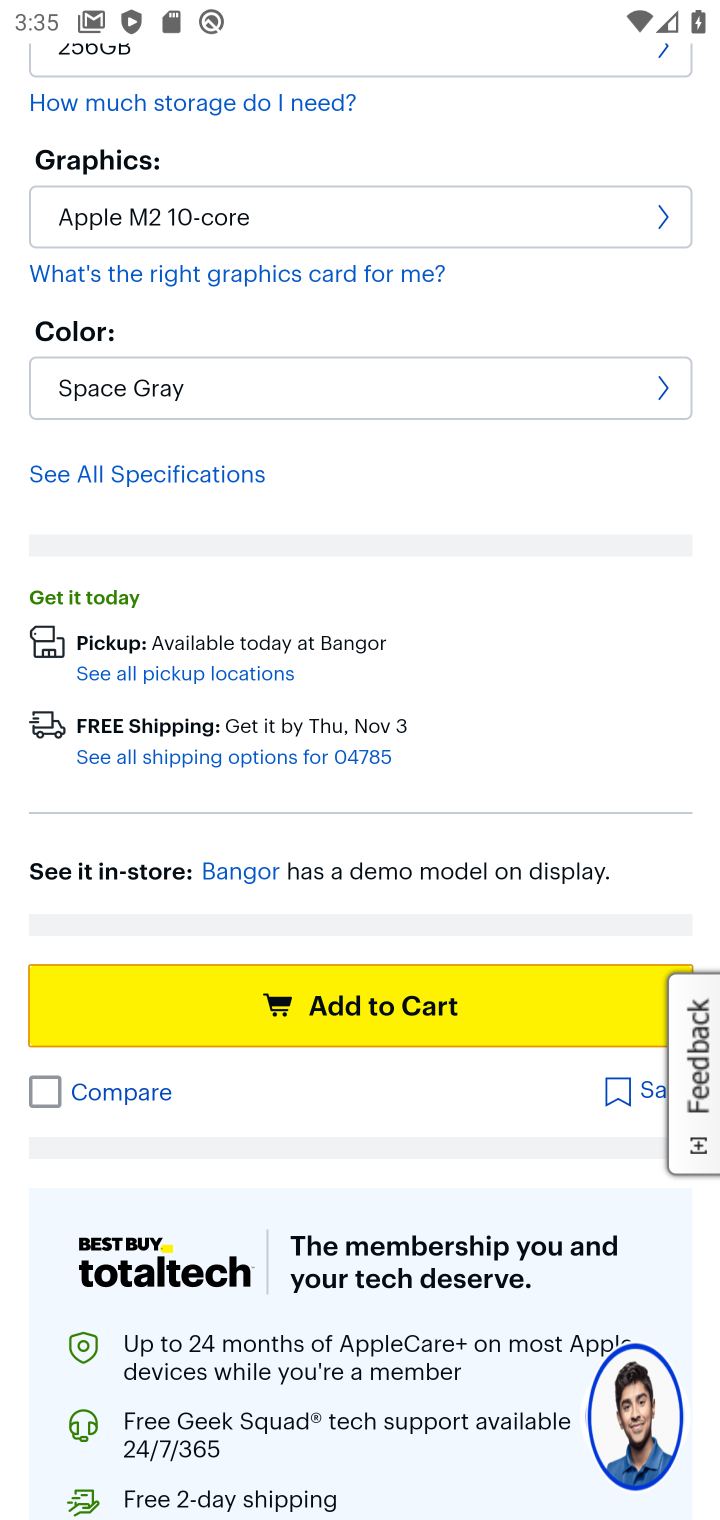
Step 29: click (427, 1018)
Your task to perform on an android device: Clear all items from cart on bestbuy.com. Search for macbook pro on bestbuy.com, select the first entry, and add it to the cart. Image 30: 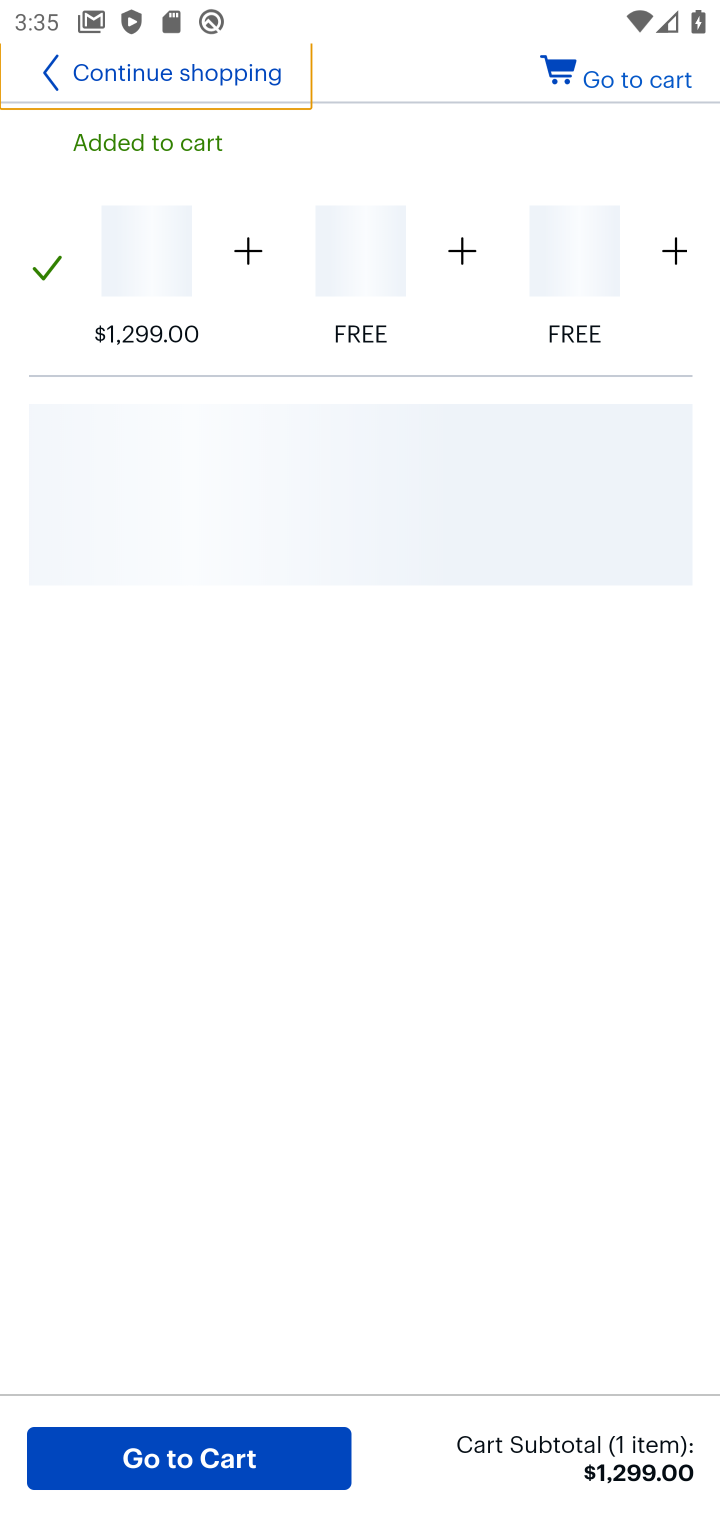
Step 30: task complete